Your task to perform on an android device: Google the capital of Brazil Image 0: 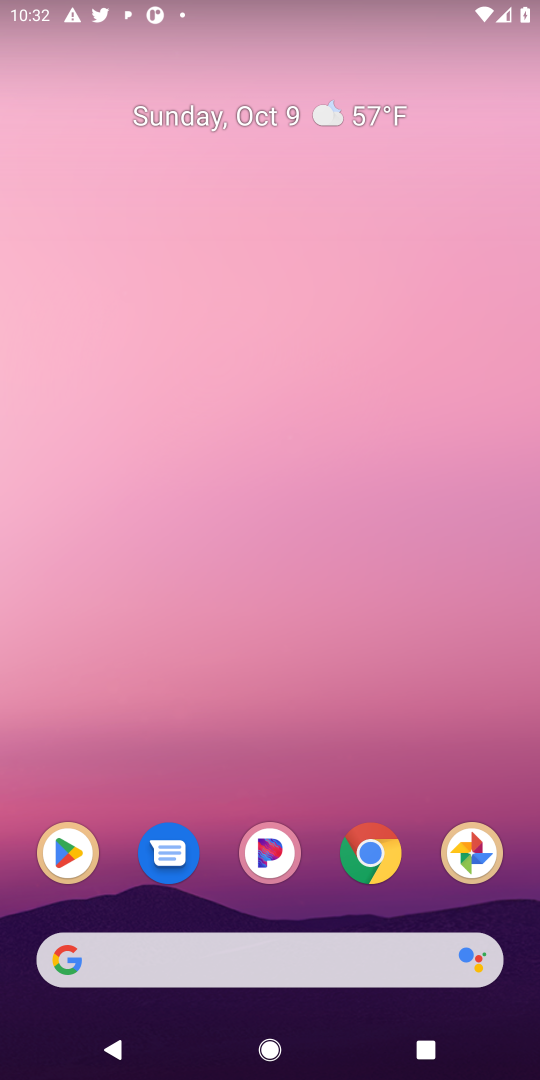
Step 0: click (313, 954)
Your task to perform on an android device: Google the capital of Brazil Image 1: 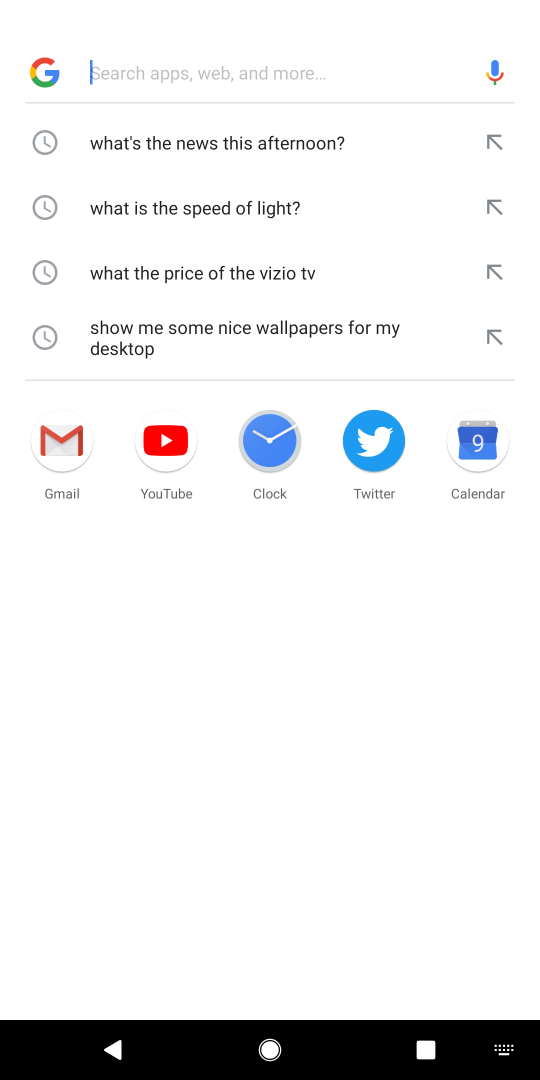
Step 1: type "Google the capital of Brazil"
Your task to perform on an android device: Google the capital of Brazil Image 2: 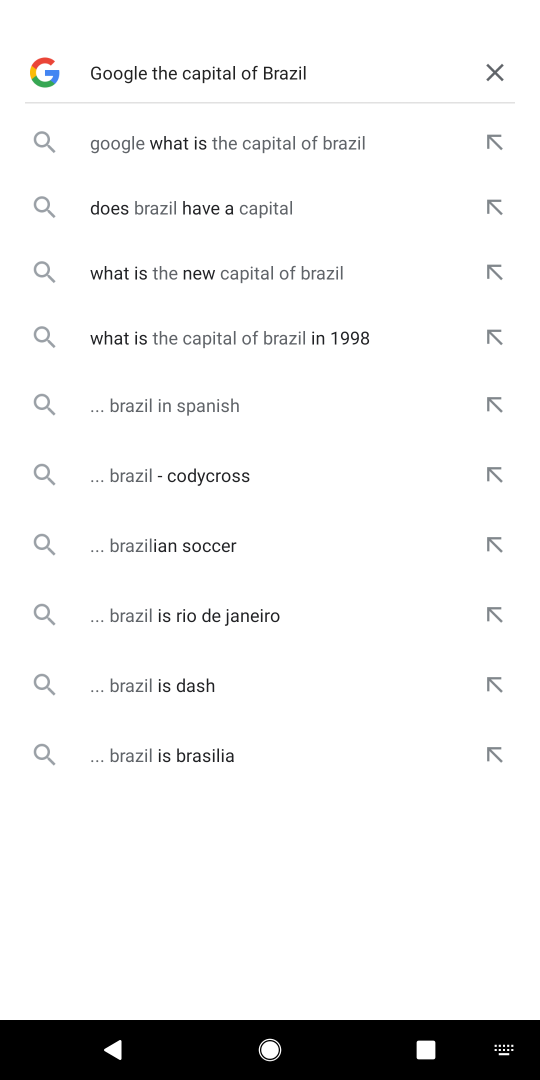
Step 2: type ""
Your task to perform on an android device: Google the capital of Brazil Image 3: 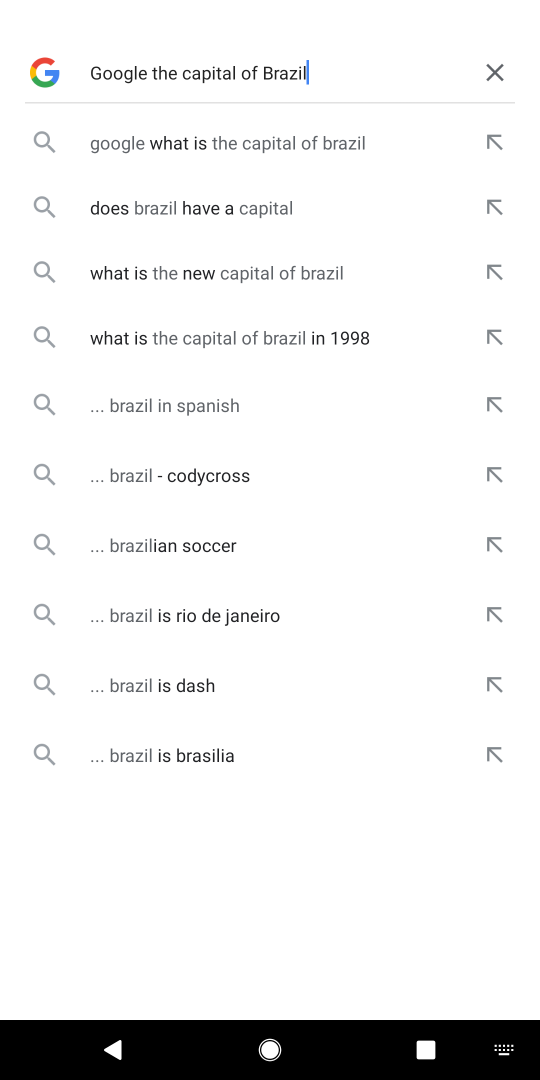
Step 3: press enter
Your task to perform on an android device: Google the capital of Brazil Image 4: 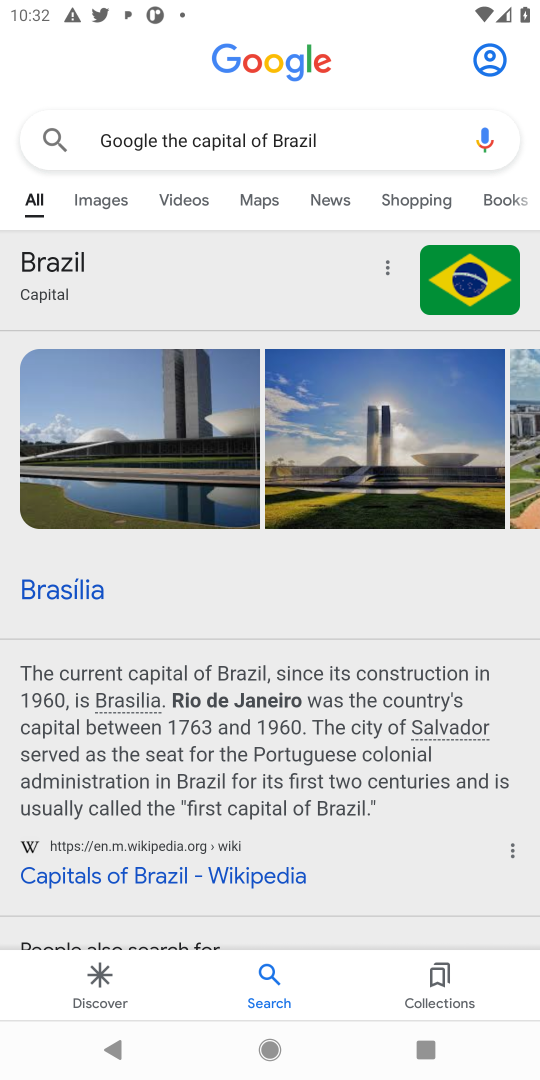
Step 4: drag from (261, 509) to (284, 412)
Your task to perform on an android device: Google the capital of Brazil Image 5: 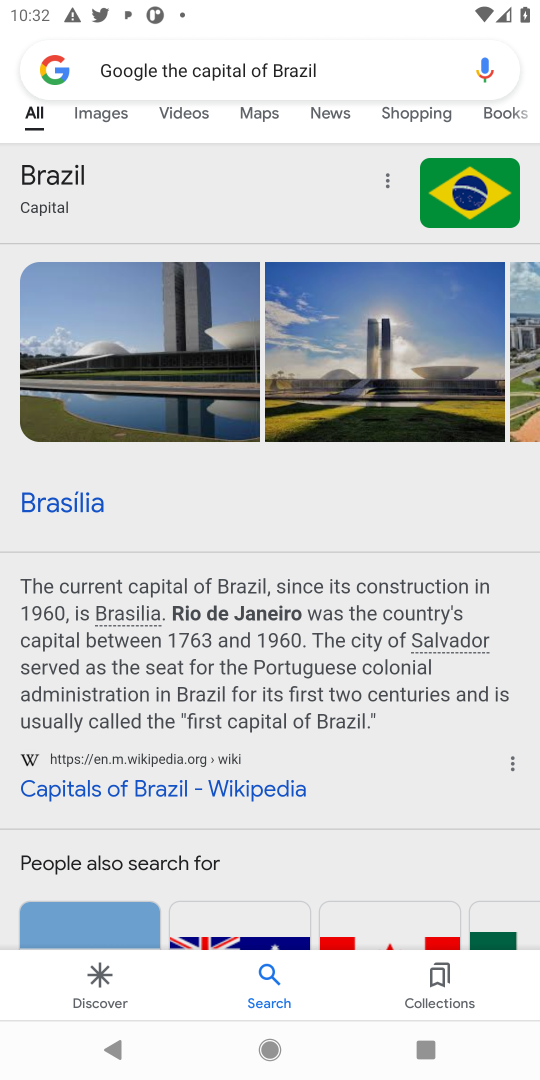
Step 5: click (132, 784)
Your task to perform on an android device: Google the capital of Brazil Image 6: 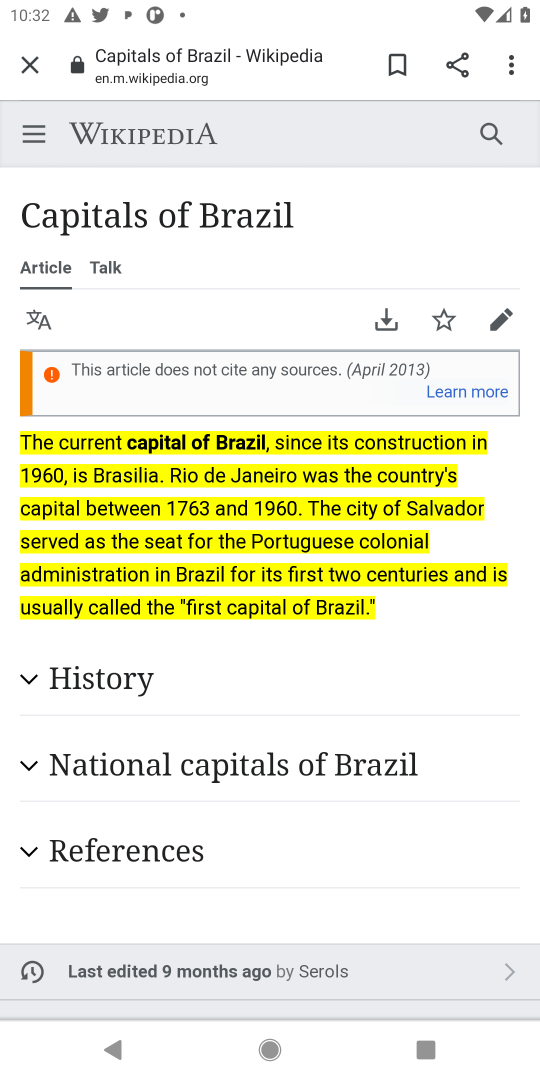
Step 6: drag from (132, 784) to (113, 303)
Your task to perform on an android device: Google the capital of Brazil Image 7: 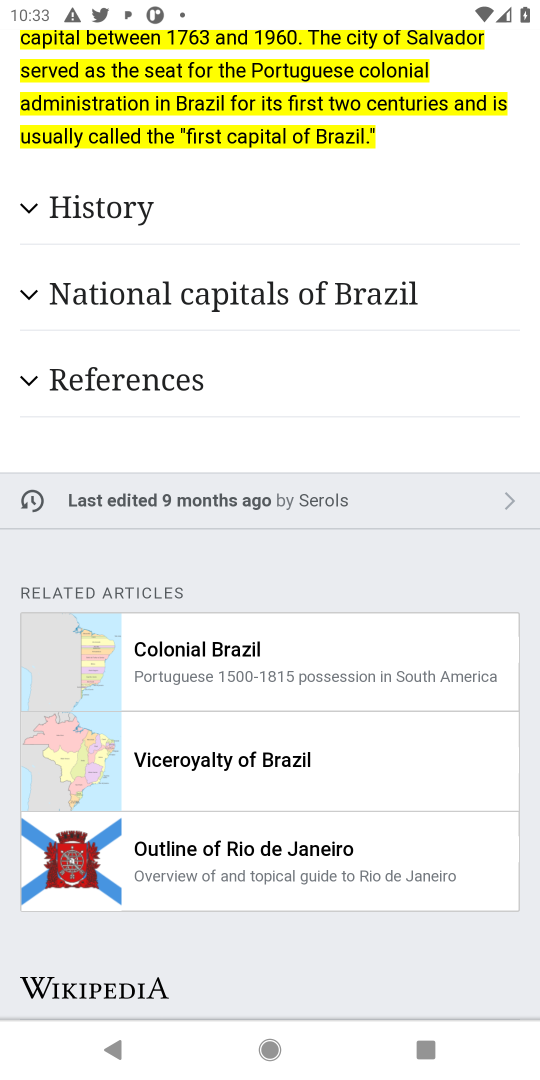
Step 7: drag from (221, 575) to (227, 265)
Your task to perform on an android device: Google the capital of Brazil Image 8: 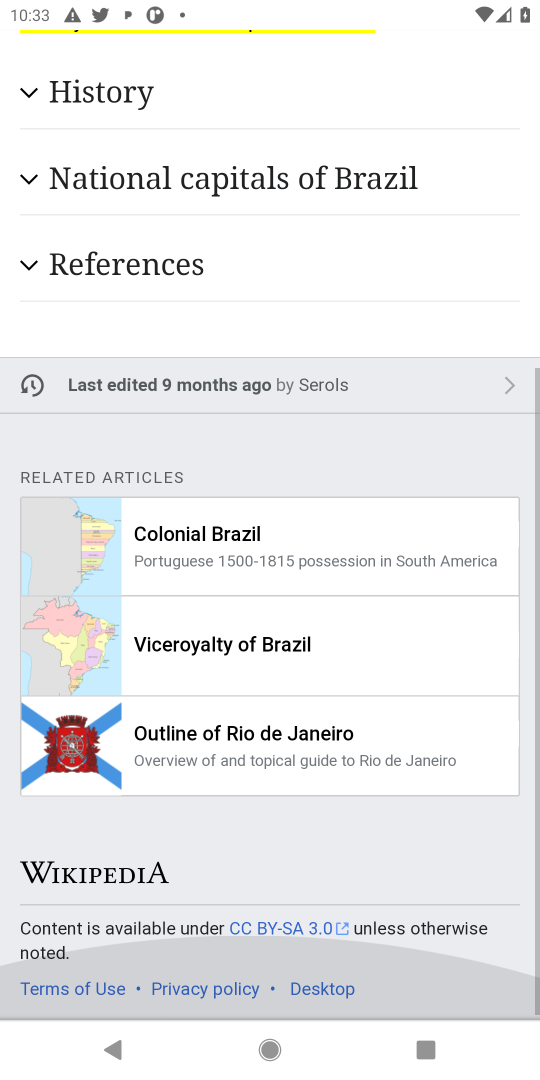
Step 8: drag from (257, 538) to (249, 225)
Your task to perform on an android device: Google the capital of Brazil Image 9: 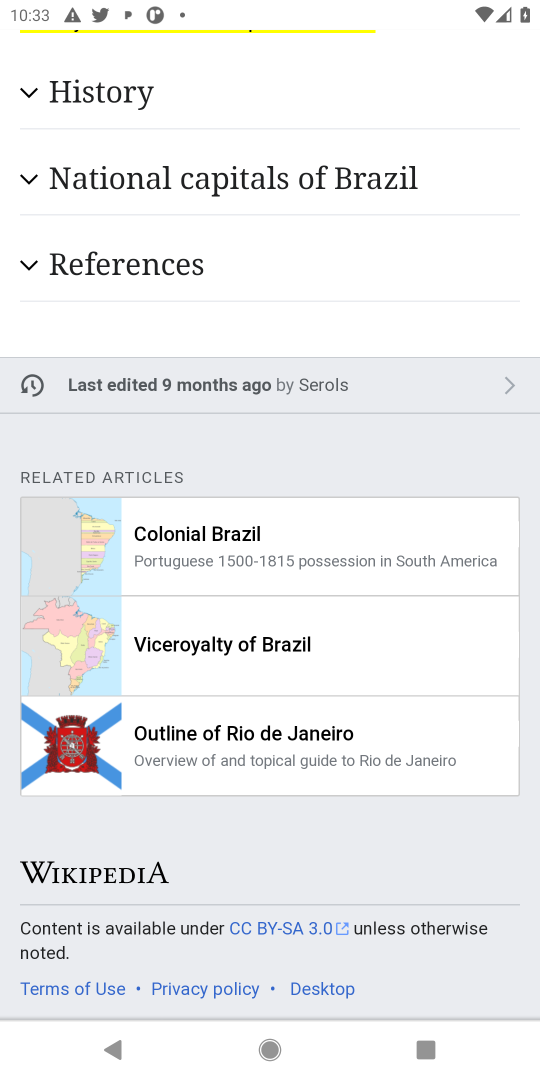
Step 9: drag from (332, 728) to (314, 201)
Your task to perform on an android device: Google the capital of Brazil Image 10: 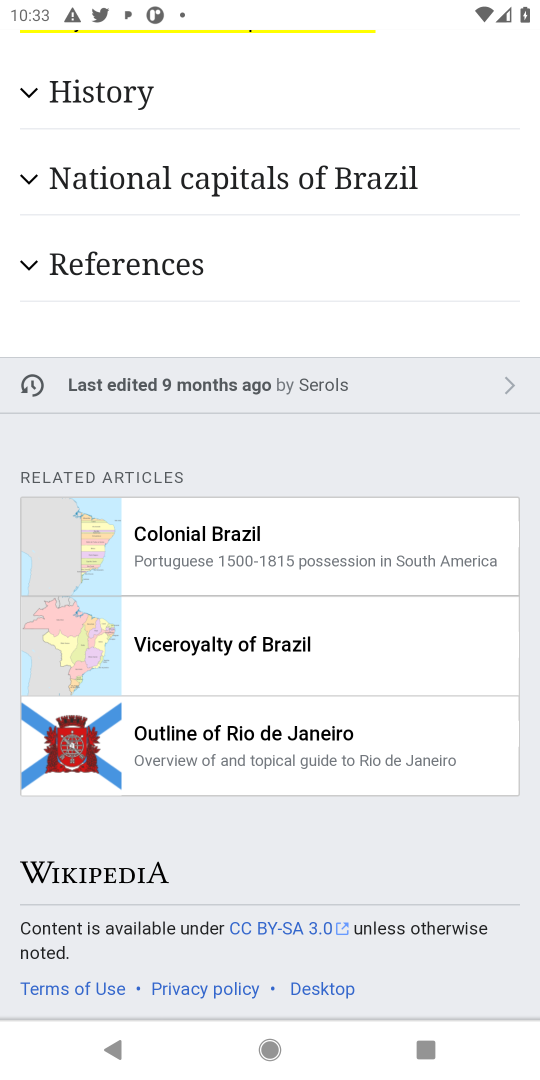
Step 10: drag from (381, 713) to (353, 247)
Your task to perform on an android device: Google the capital of Brazil Image 11: 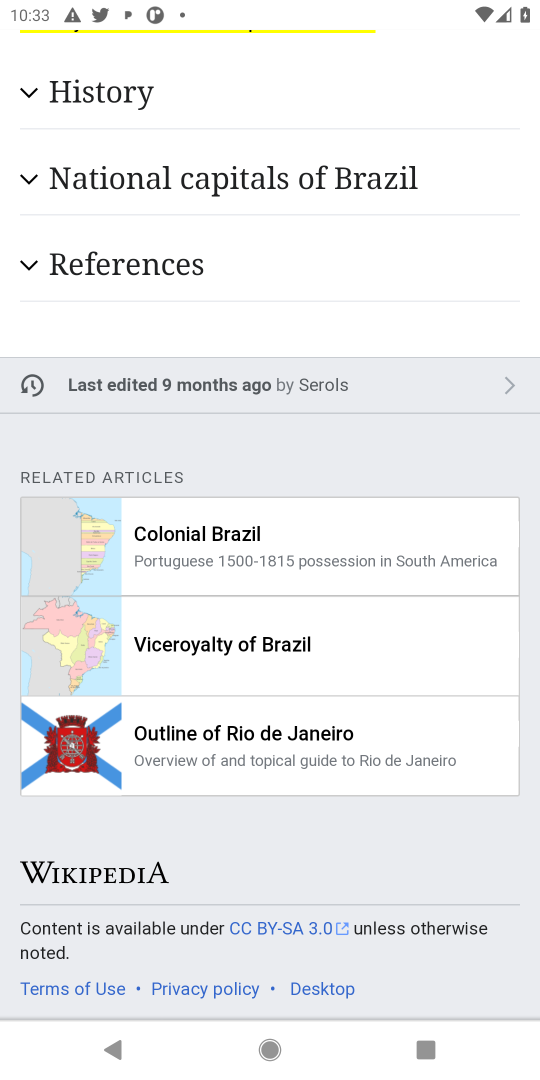
Step 11: drag from (347, 619) to (293, 216)
Your task to perform on an android device: Google the capital of Brazil Image 12: 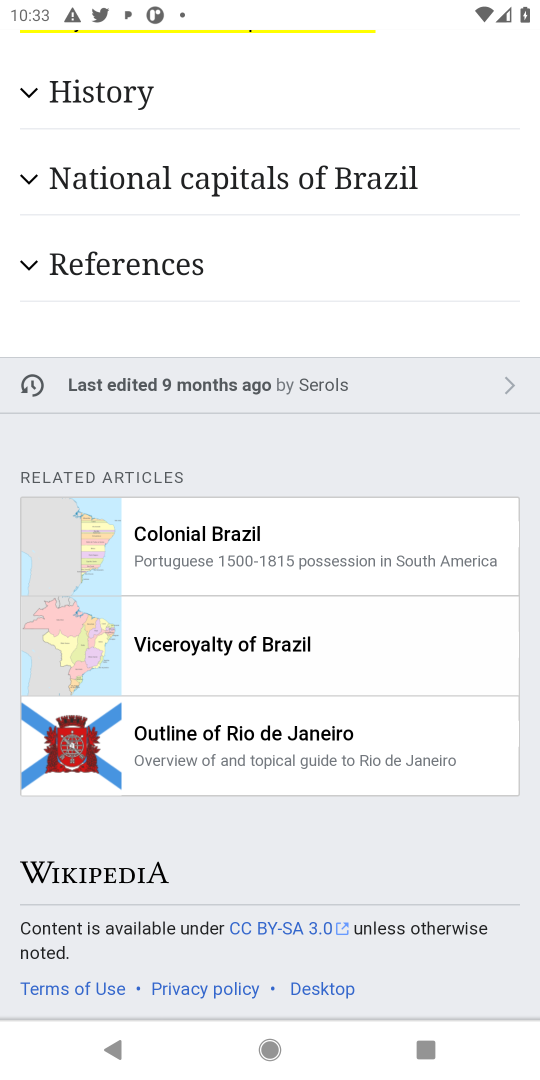
Step 12: drag from (362, 551) to (347, 145)
Your task to perform on an android device: Google the capital of Brazil Image 13: 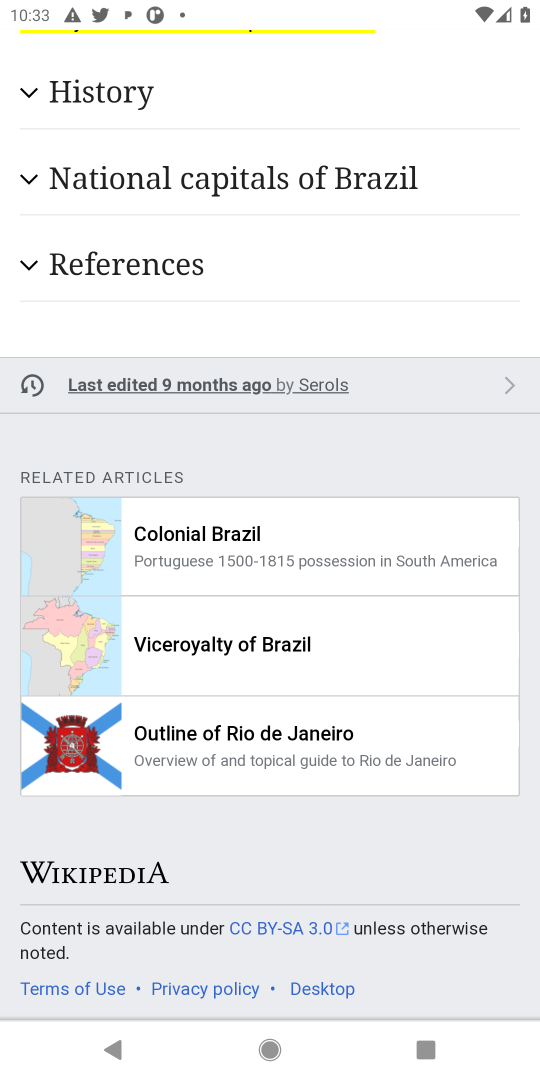
Step 13: drag from (375, 382) to (378, 124)
Your task to perform on an android device: Google the capital of Brazil Image 14: 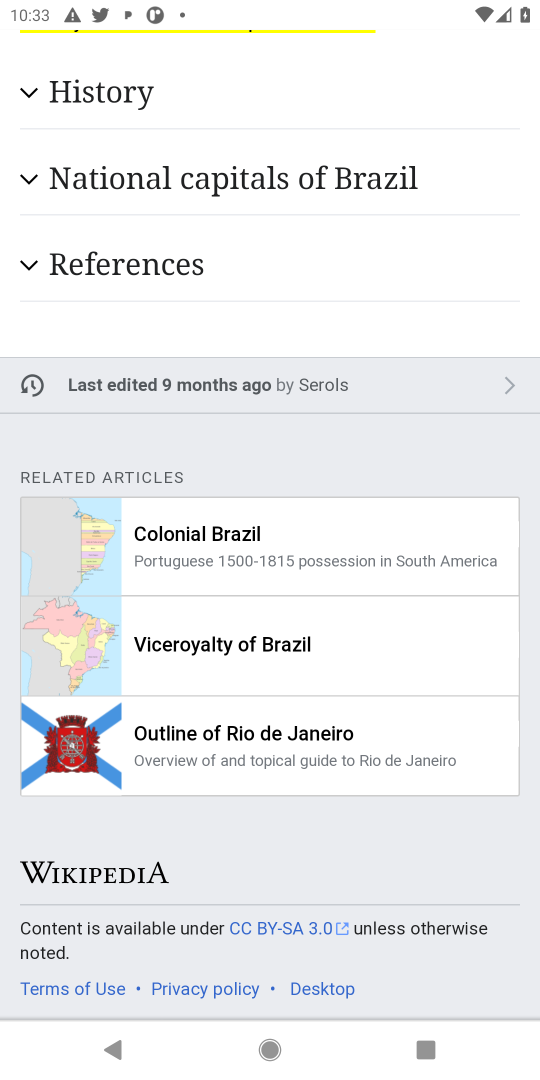
Step 14: drag from (293, 373) to (301, 164)
Your task to perform on an android device: Google the capital of Brazil Image 15: 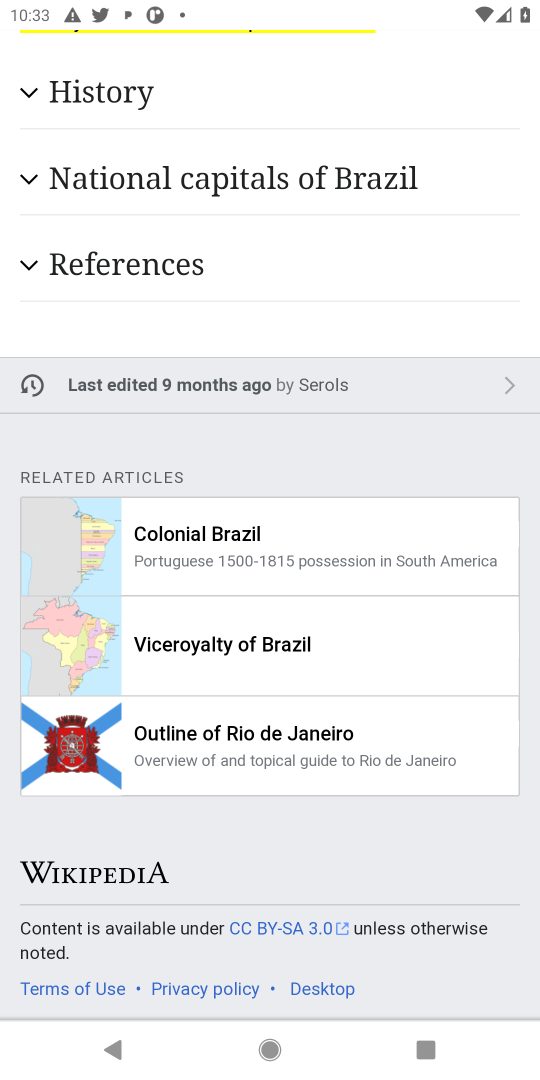
Step 15: drag from (259, 361) to (252, 189)
Your task to perform on an android device: Google the capital of Brazil Image 16: 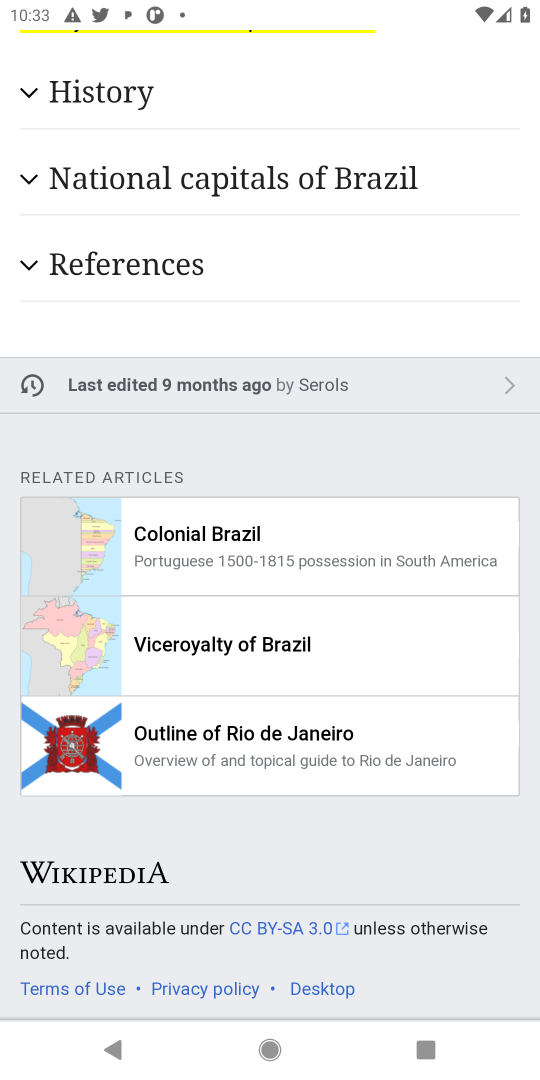
Step 16: drag from (225, 74) to (229, 670)
Your task to perform on an android device: Google the capital of Brazil Image 17: 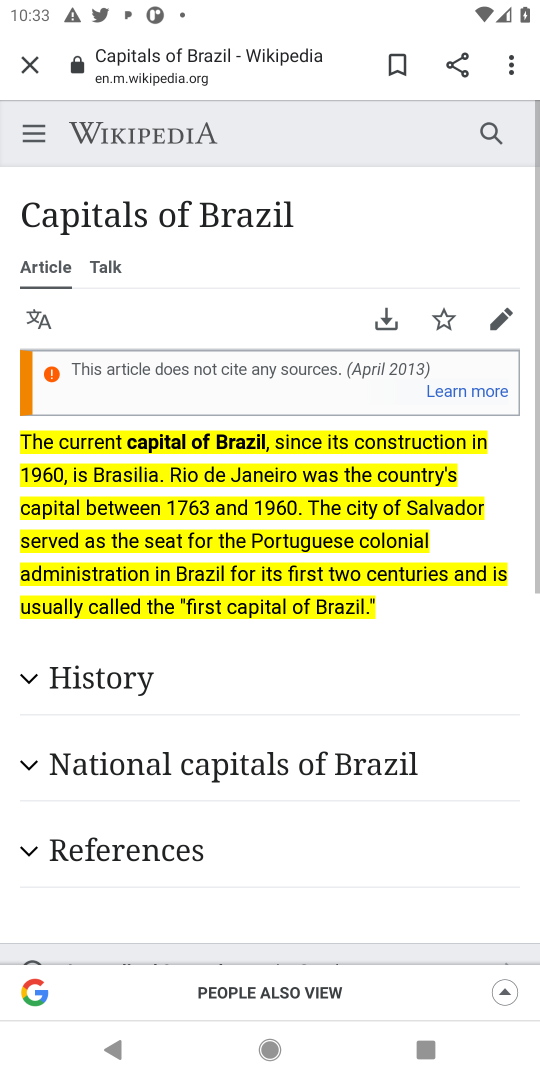
Step 17: drag from (280, 161) to (345, 718)
Your task to perform on an android device: Google the capital of Brazil Image 18: 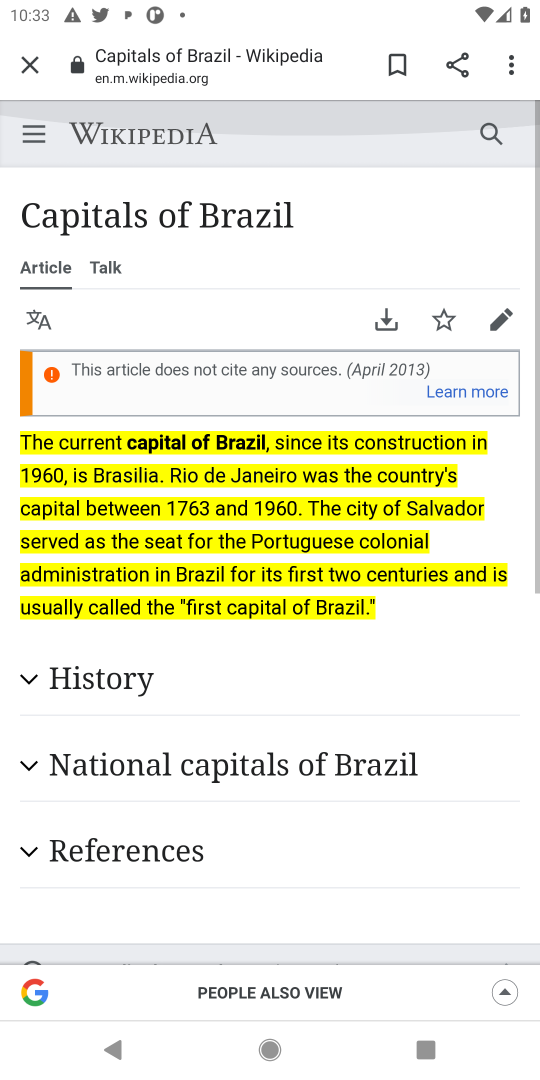
Step 18: drag from (366, 491) to (379, 712)
Your task to perform on an android device: Google the capital of Brazil Image 19: 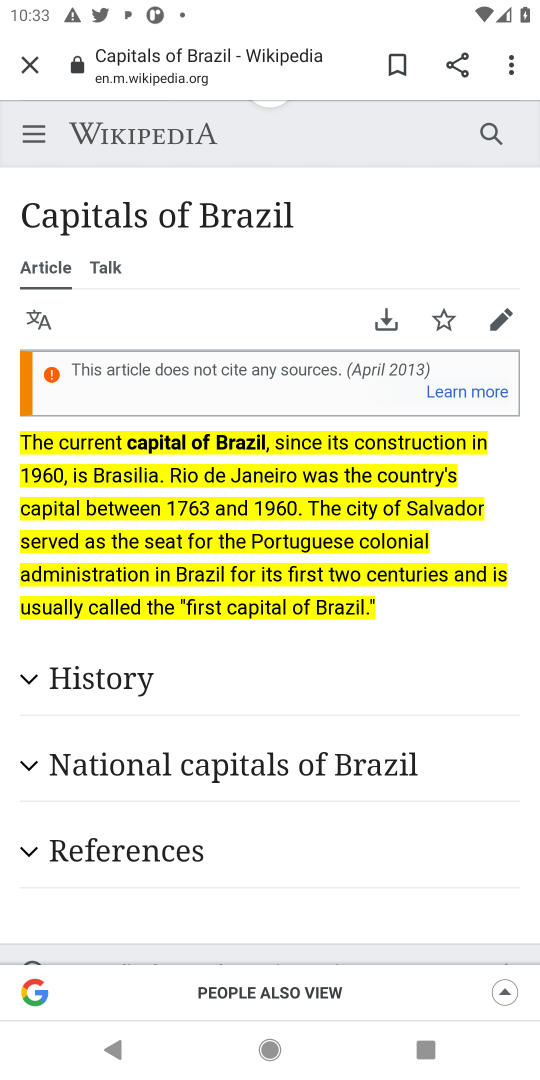
Step 19: drag from (378, 483) to (393, 720)
Your task to perform on an android device: Google the capital of Brazil Image 20: 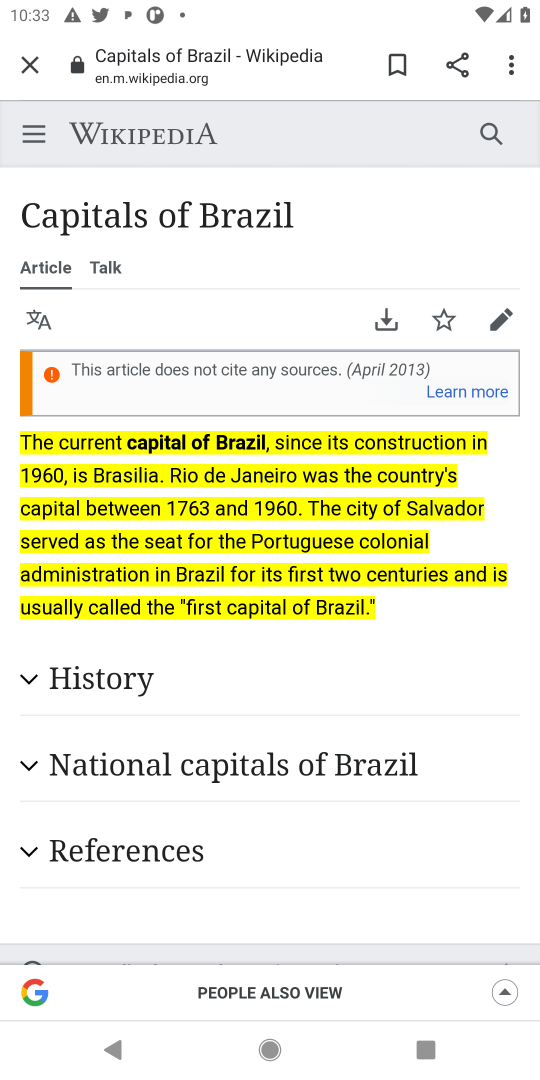
Step 20: drag from (315, 404) to (345, 747)
Your task to perform on an android device: Google the capital of Brazil Image 21: 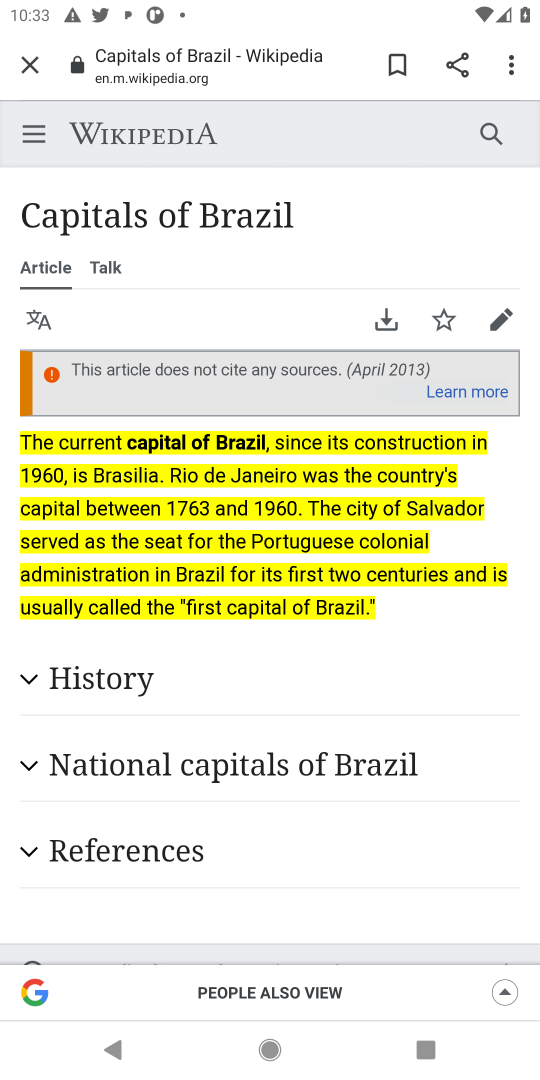
Step 21: drag from (302, 499) to (361, 693)
Your task to perform on an android device: Google the capital of Brazil Image 22: 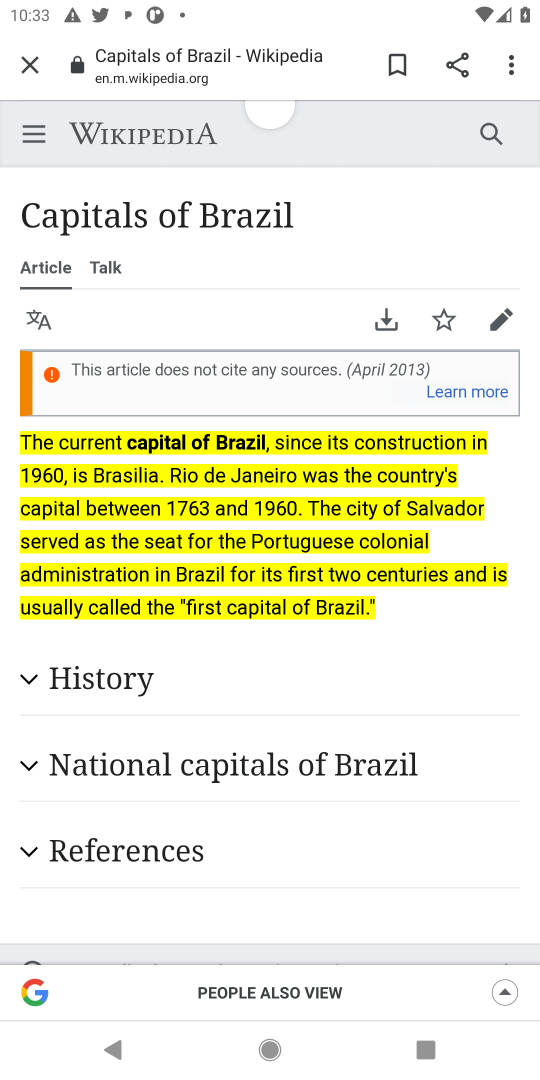
Step 22: drag from (327, 540) to (357, 681)
Your task to perform on an android device: Google the capital of Brazil Image 23: 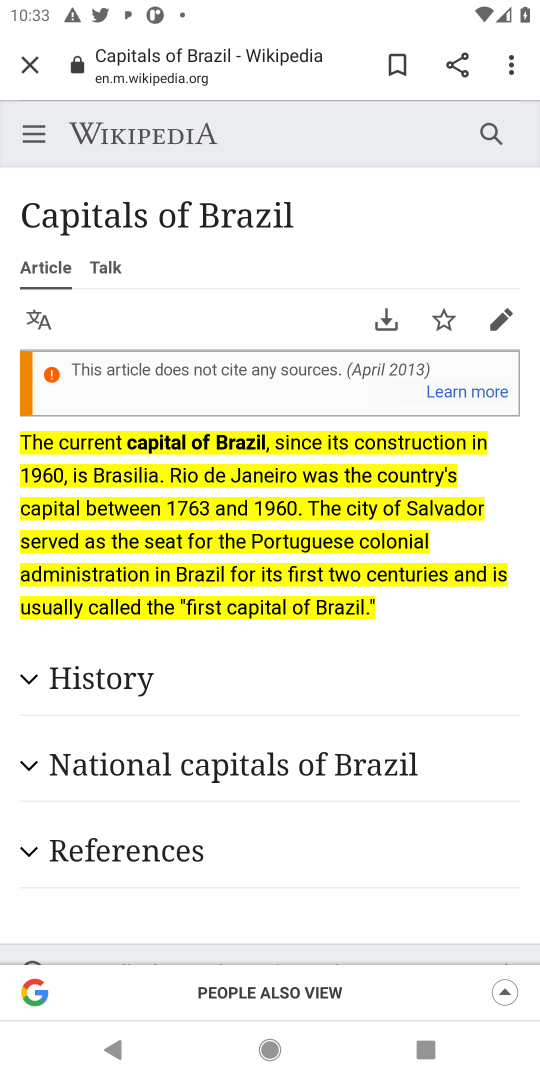
Step 23: drag from (360, 600) to (352, 766)
Your task to perform on an android device: Google the capital of Brazil Image 24: 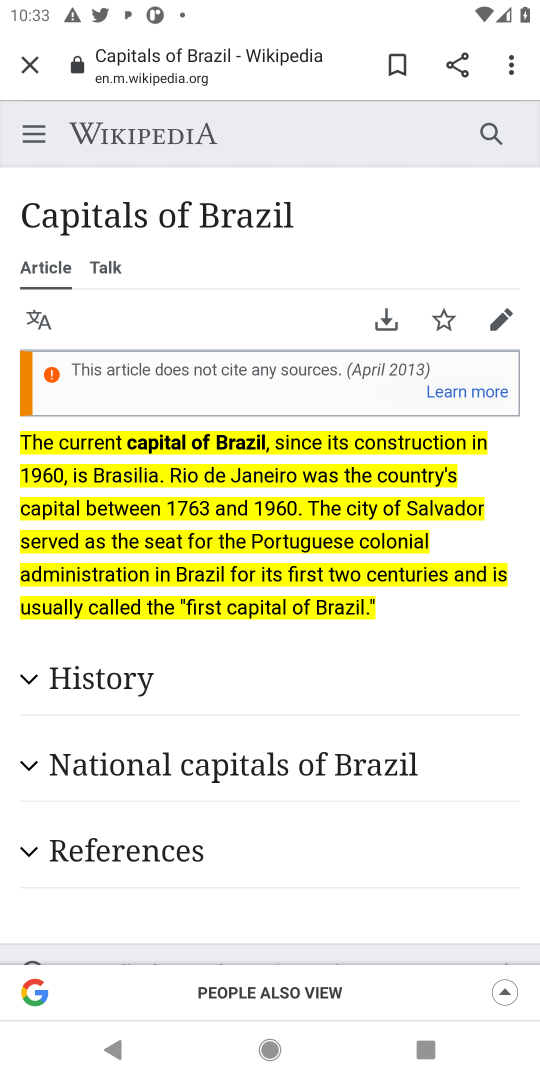
Step 24: drag from (289, 418) to (306, 815)
Your task to perform on an android device: Google the capital of Brazil Image 25: 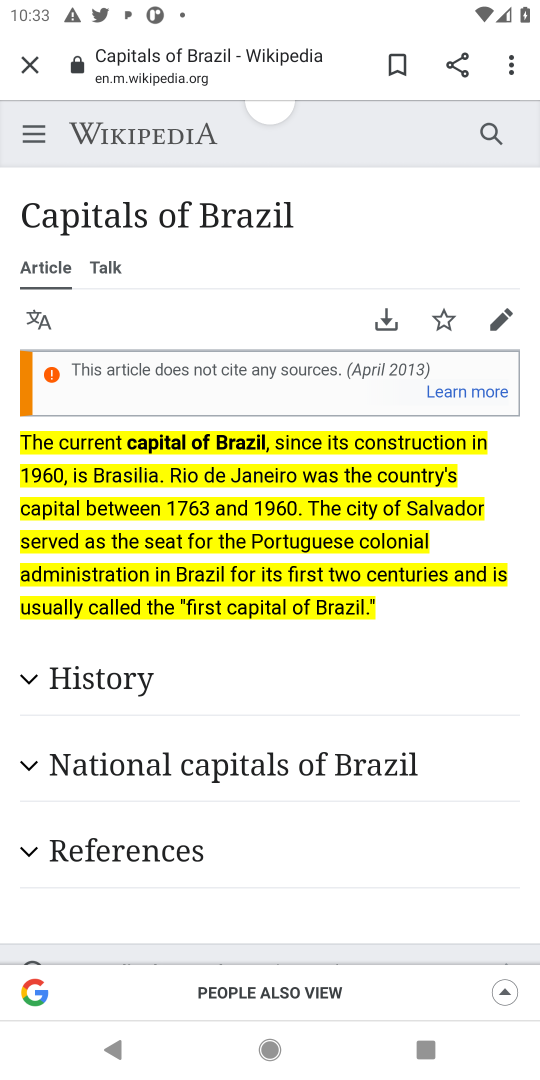
Step 25: click (369, 650)
Your task to perform on an android device: Google the capital of Brazil Image 26: 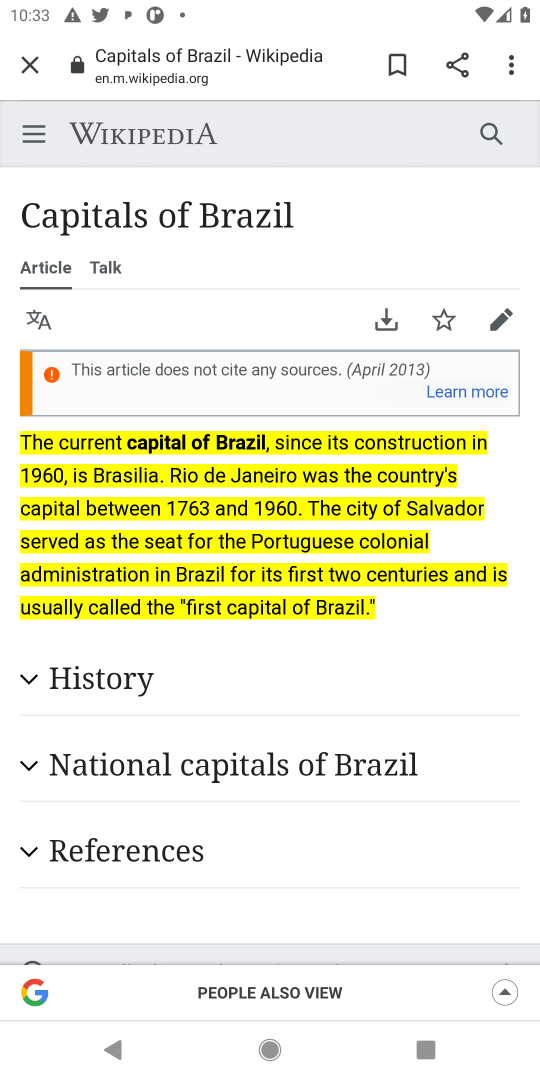
Step 26: press back button
Your task to perform on an android device: Google the capital of Brazil Image 27: 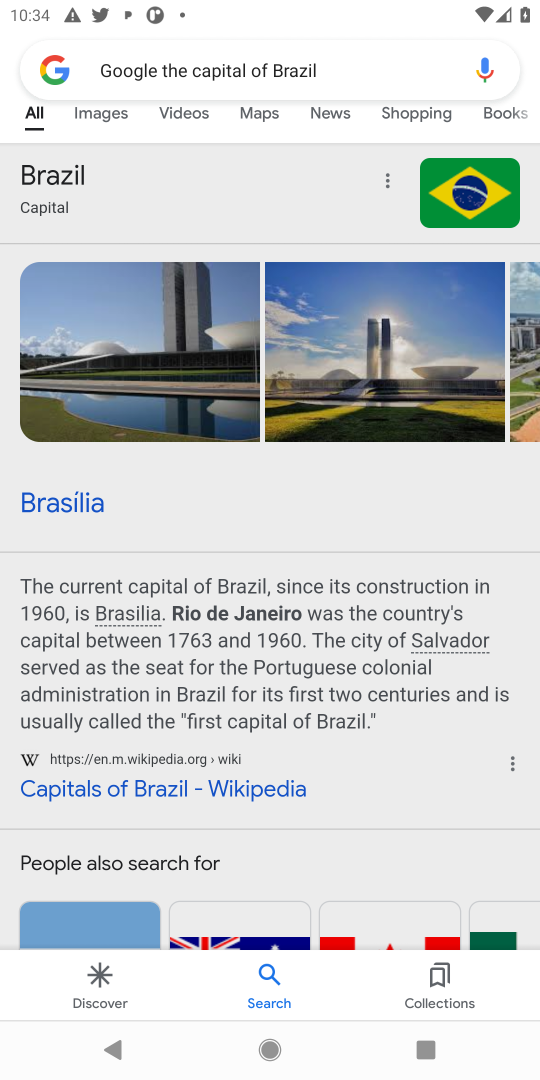
Step 27: drag from (306, 514) to (333, 238)
Your task to perform on an android device: Google the capital of Brazil Image 28: 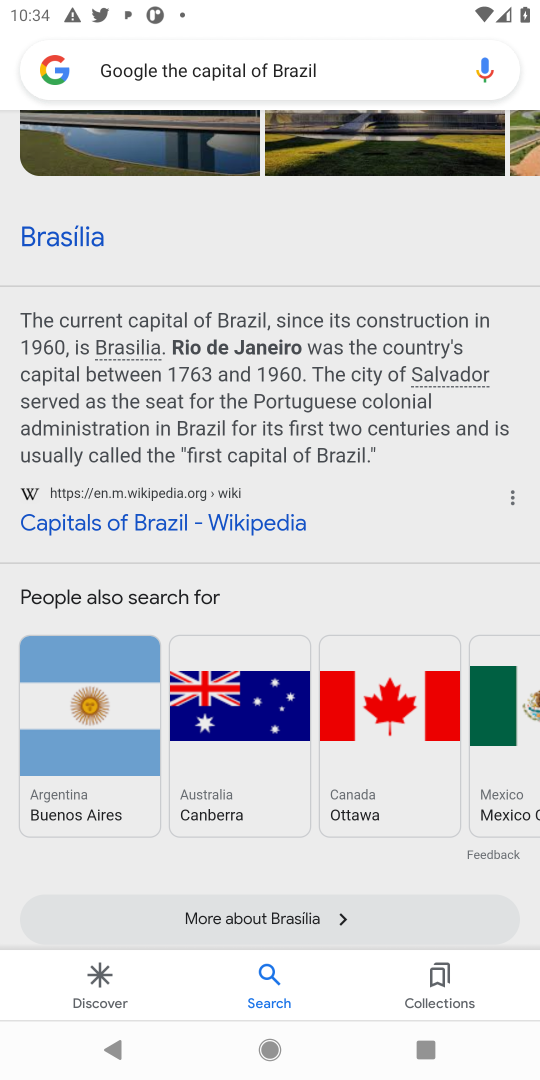
Step 28: drag from (272, 667) to (350, 307)
Your task to perform on an android device: Google the capital of Brazil Image 29: 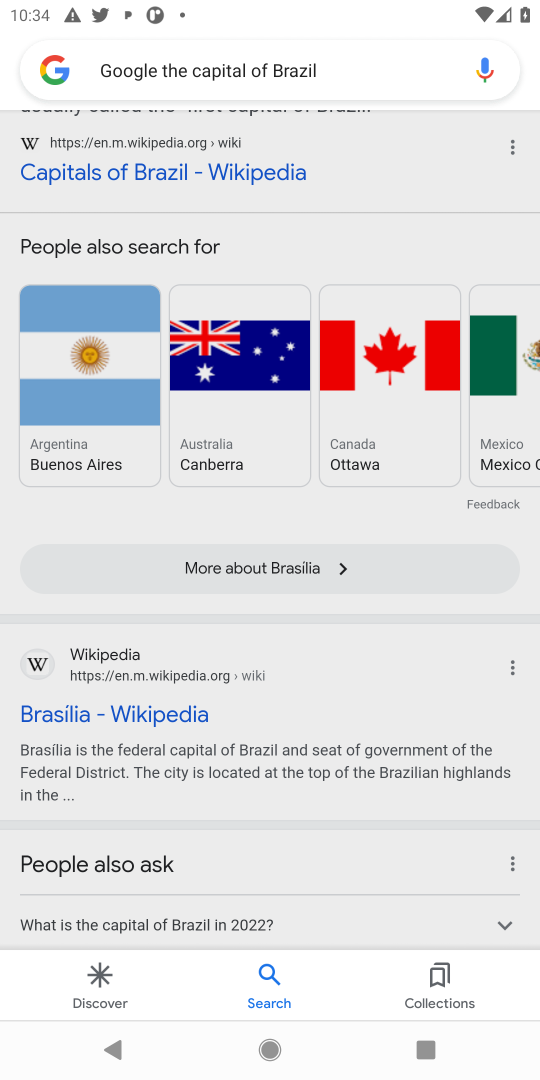
Step 29: drag from (268, 664) to (281, 321)
Your task to perform on an android device: Google the capital of Brazil Image 30: 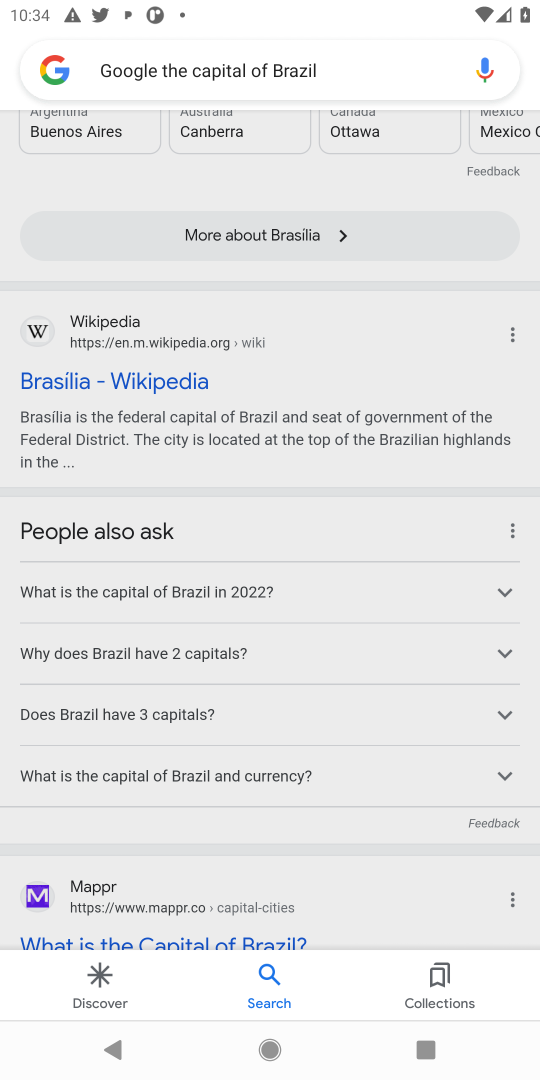
Step 30: drag from (275, 781) to (252, 299)
Your task to perform on an android device: Google the capital of Brazil Image 31: 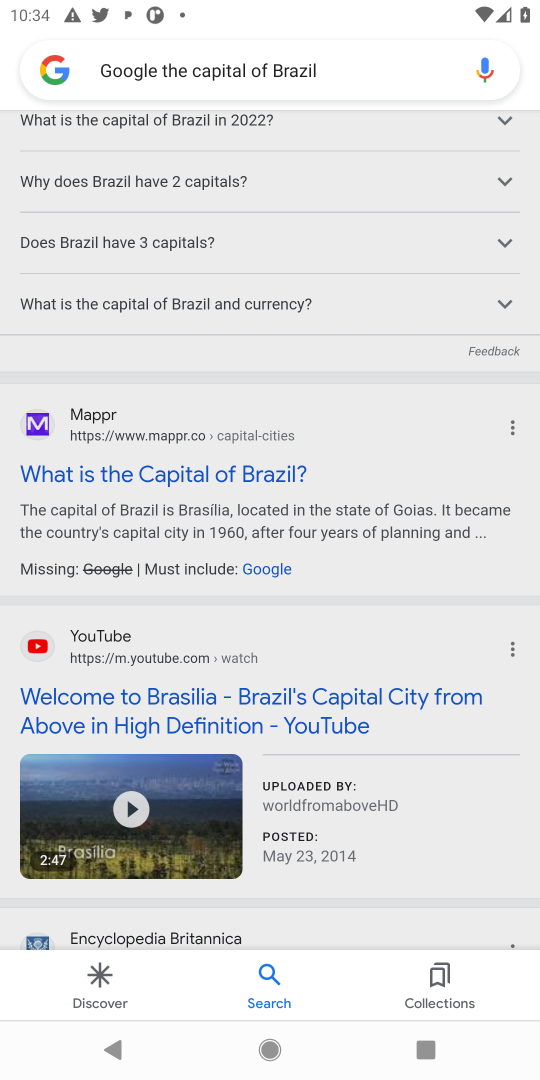
Step 31: drag from (285, 515) to (281, 352)
Your task to perform on an android device: Google the capital of Brazil Image 32: 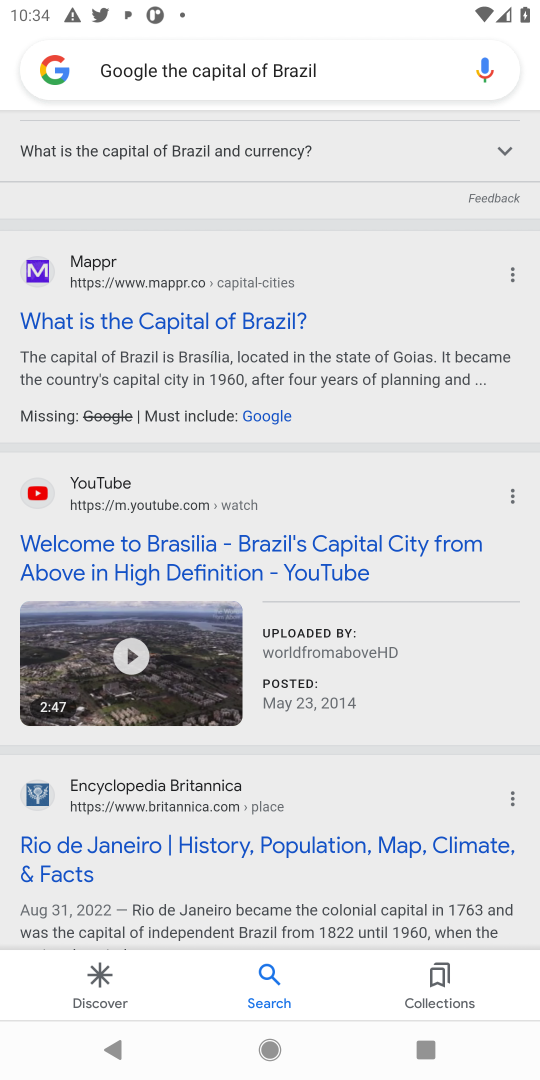
Step 32: click (153, 310)
Your task to perform on an android device: Google the capital of Brazil Image 33: 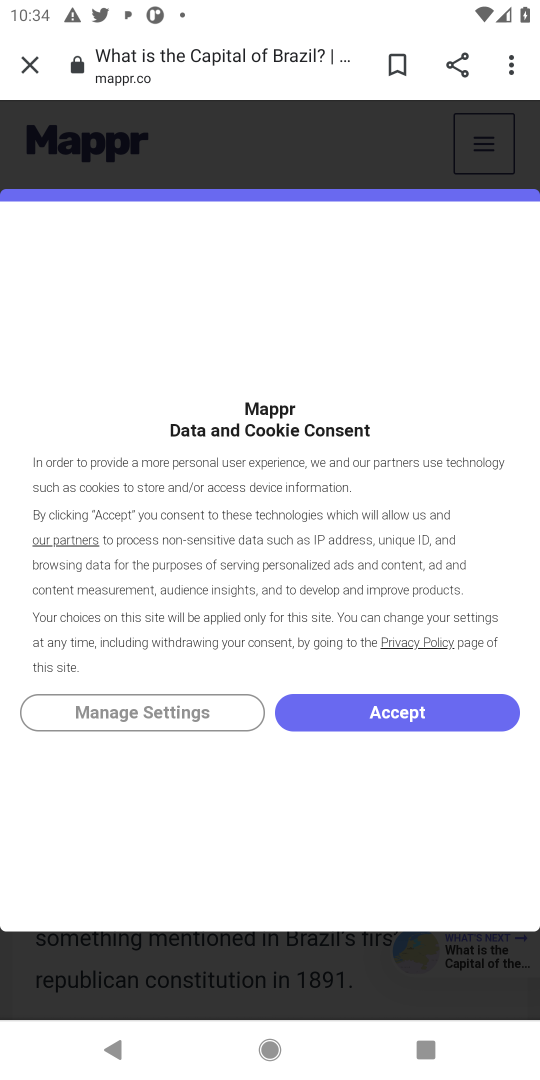
Step 33: click (485, 704)
Your task to perform on an android device: Google the capital of Brazil Image 34: 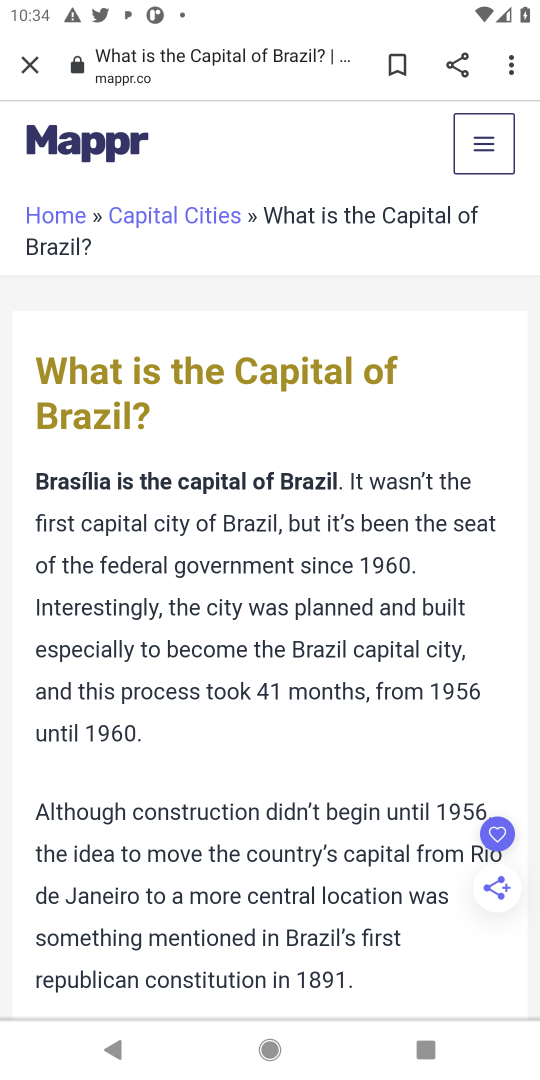
Step 34: drag from (468, 789) to (449, 257)
Your task to perform on an android device: Google the capital of Brazil Image 35: 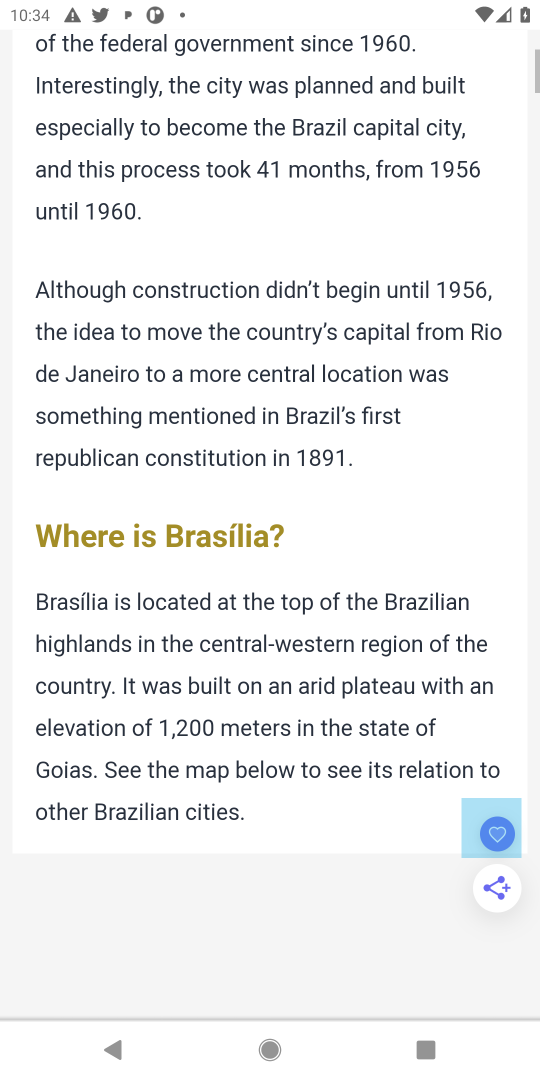
Step 35: drag from (384, 608) to (388, 345)
Your task to perform on an android device: Google the capital of Brazil Image 36: 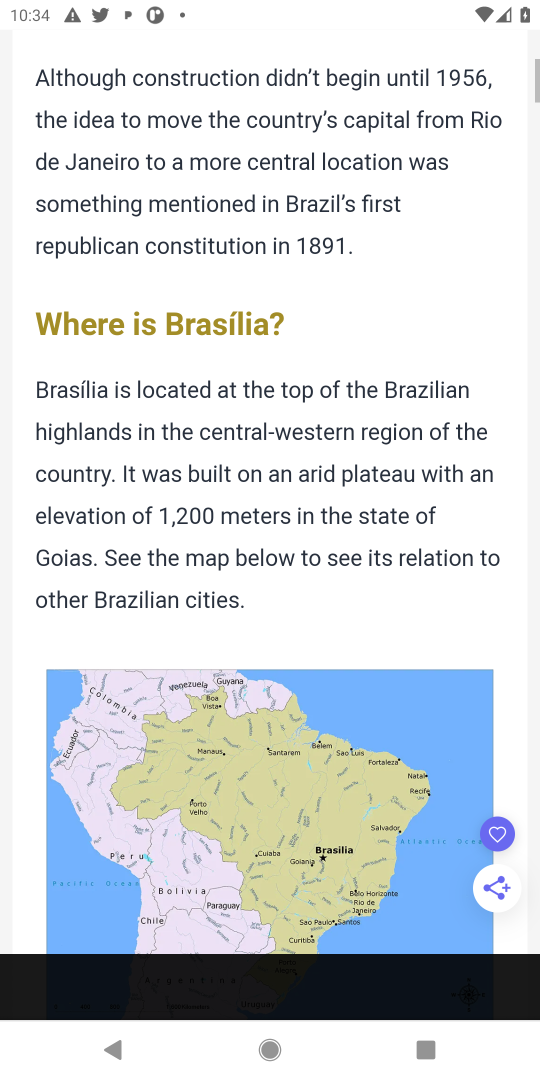
Step 36: drag from (399, 673) to (400, 304)
Your task to perform on an android device: Google the capital of Brazil Image 37: 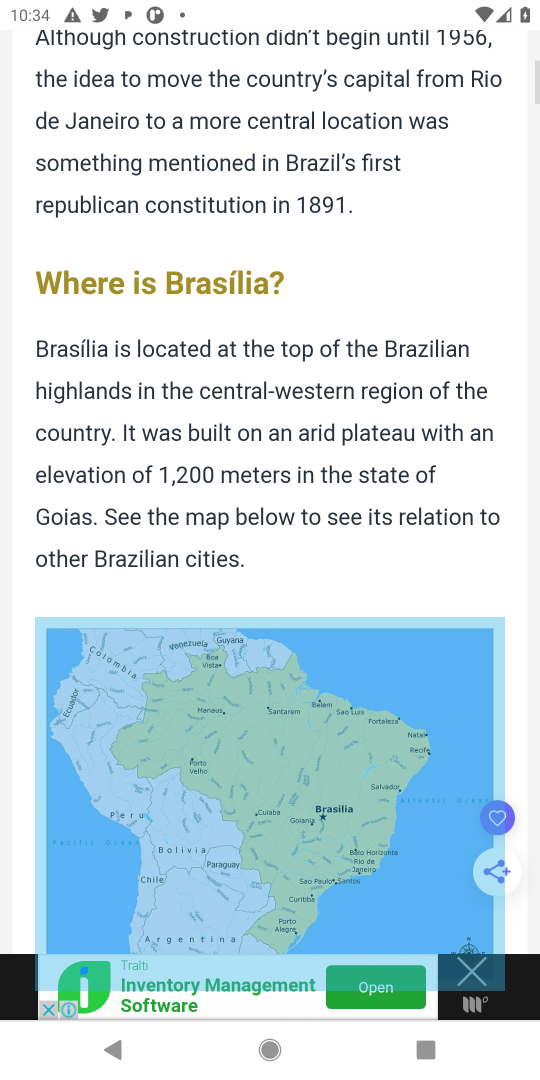
Step 37: drag from (337, 425) to (320, 278)
Your task to perform on an android device: Google the capital of Brazil Image 38: 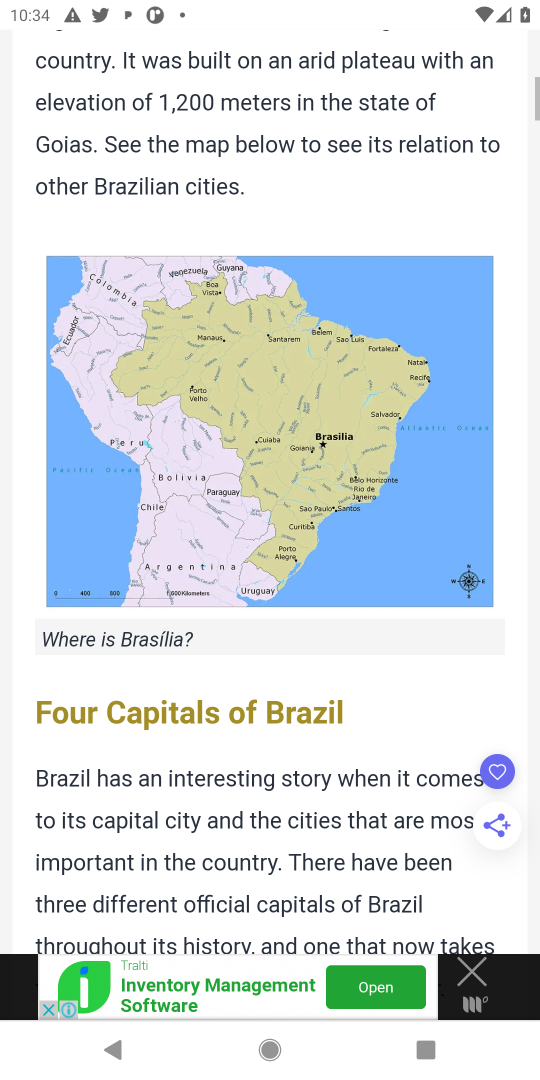
Step 38: drag from (387, 737) to (390, 244)
Your task to perform on an android device: Google the capital of Brazil Image 39: 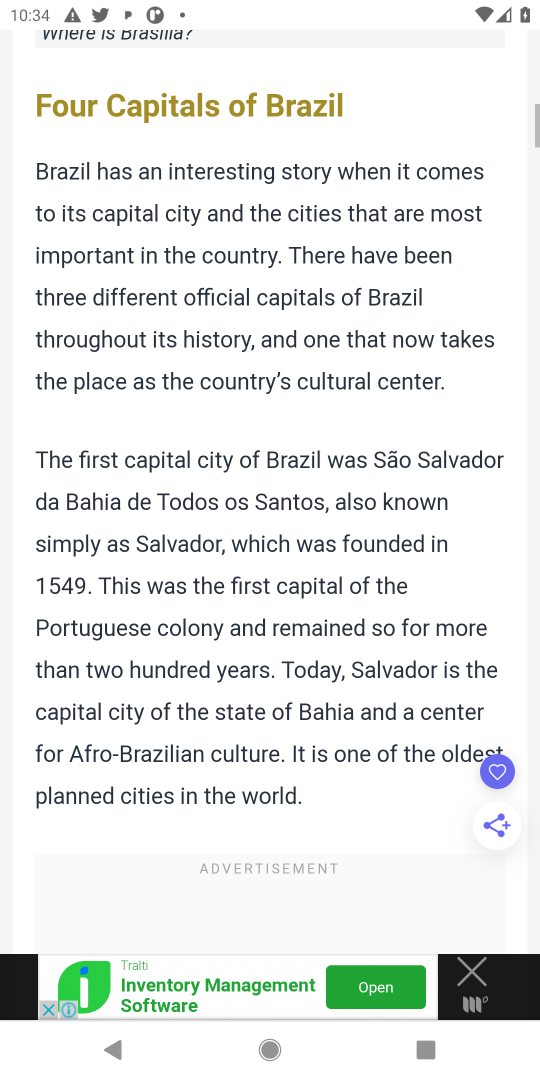
Step 39: drag from (367, 458) to (368, 137)
Your task to perform on an android device: Google the capital of Brazil Image 40: 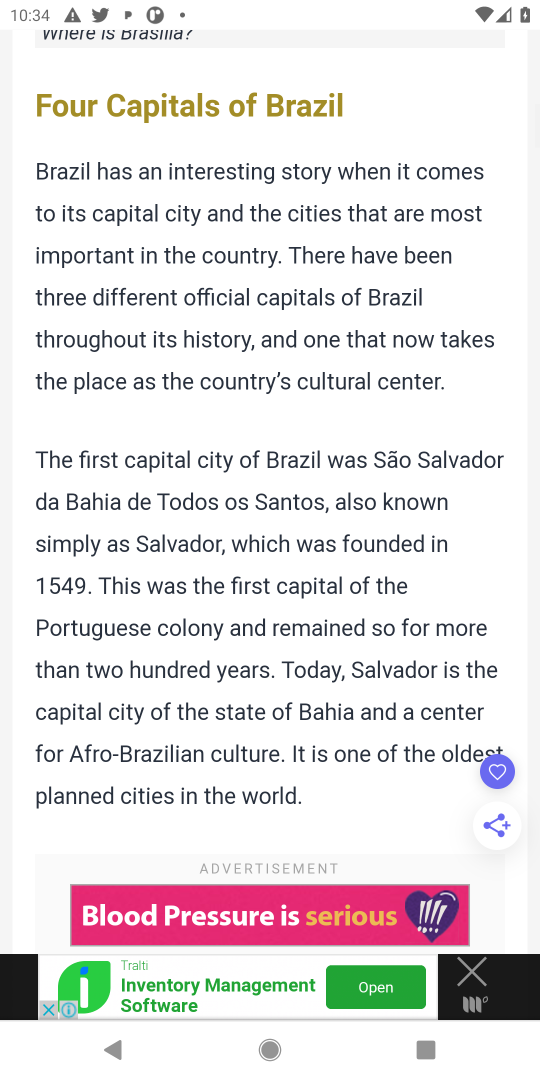
Step 40: drag from (349, 663) to (319, 21)
Your task to perform on an android device: Google the capital of Brazil Image 41: 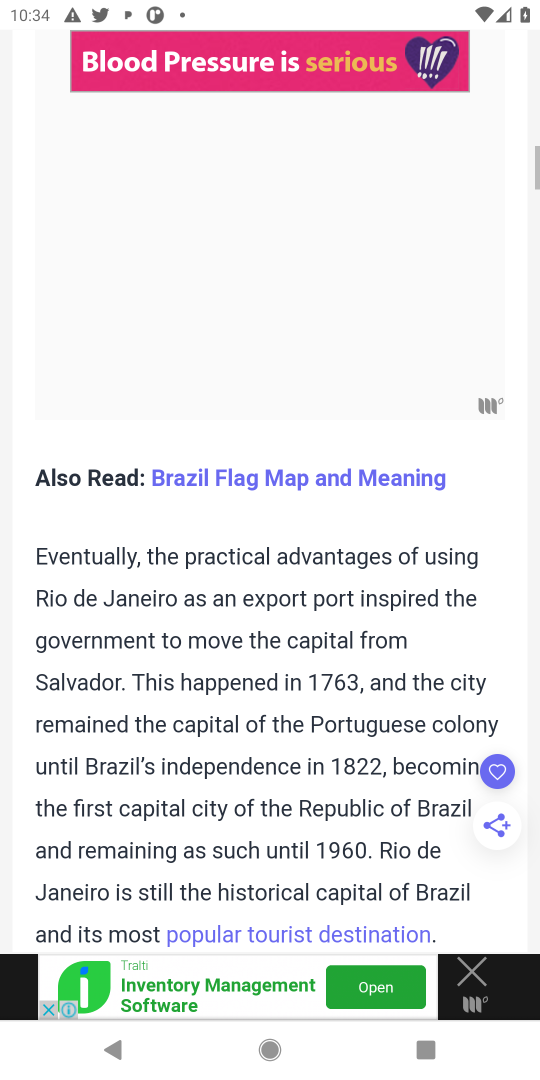
Step 41: drag from (296, 604) to (316, 271)
Your task to perform on an android device: Google the capital of Brazil Image 42: 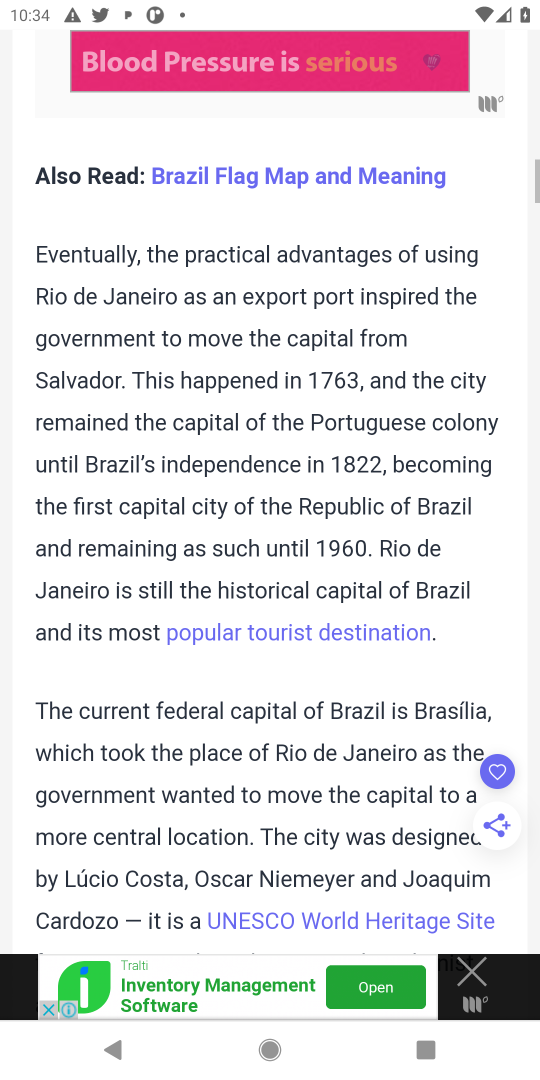
Step 42: drag from (319, 448) to (296, 332)
Your task to perform on an android device: Google the capital of Brazil Image 43: 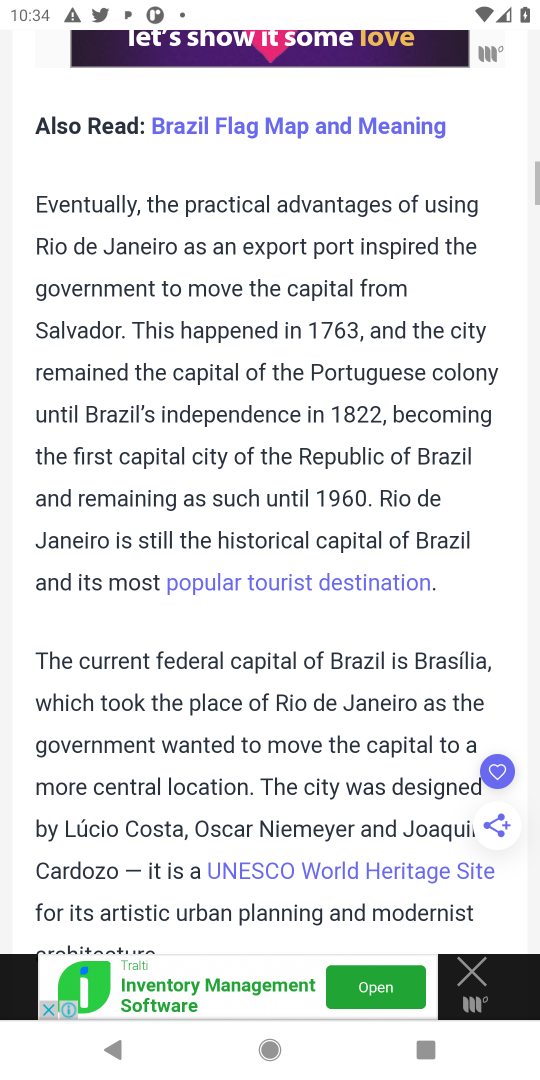
Step 43: drag from (265, 545) to (284, 386)
Your task to perform on an android device: Google the capital of Brazil Image 44: 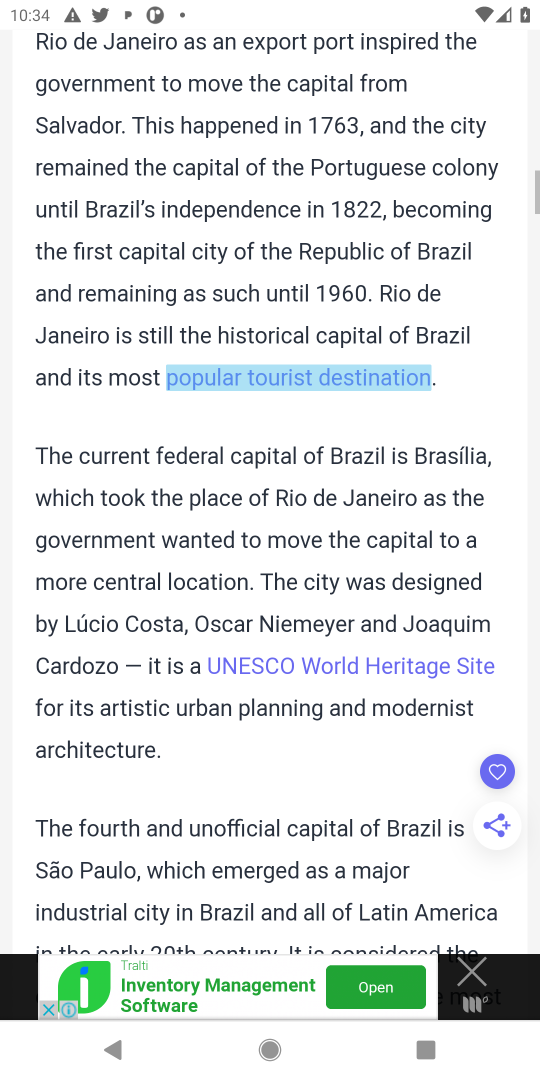
Step 44: drag from (272, 414) to (280, 288)
Your task to perform on an android device: Google the capital of Brazil Image 45: 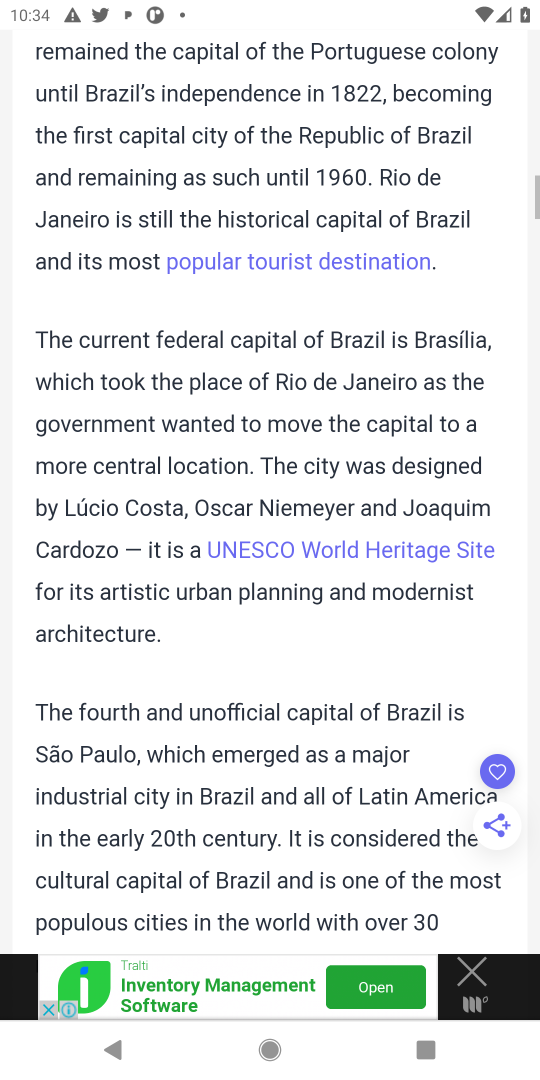
Step 45: drag from (310, 596) to (289, 235)
Your task to perform on an android device: Google the capital of Brazil Image 46: 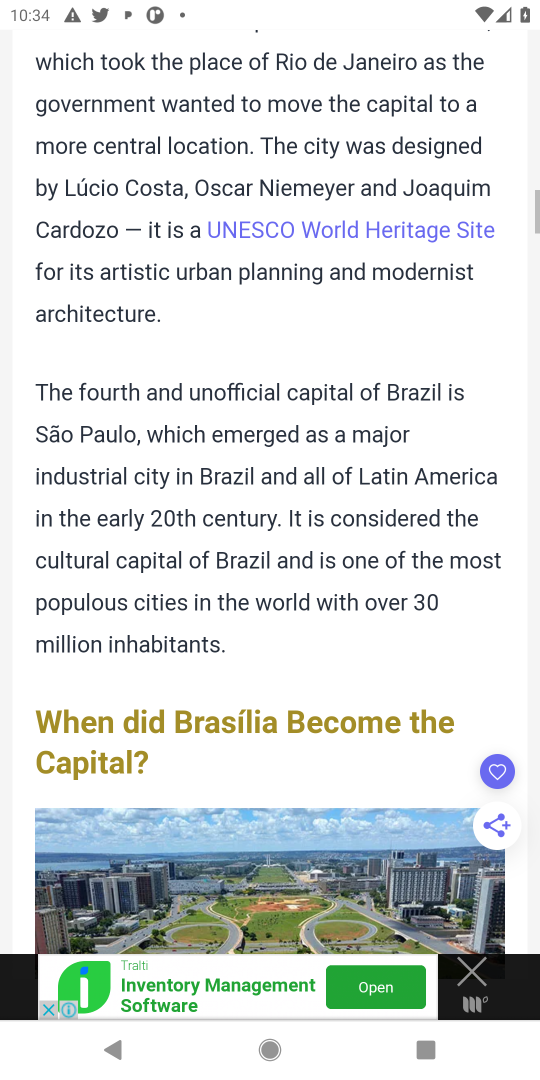
Step 46: drag from (230, 313) to (230, 152)
Your task to perform on an android device: Google the capital of Brazil Image 47: 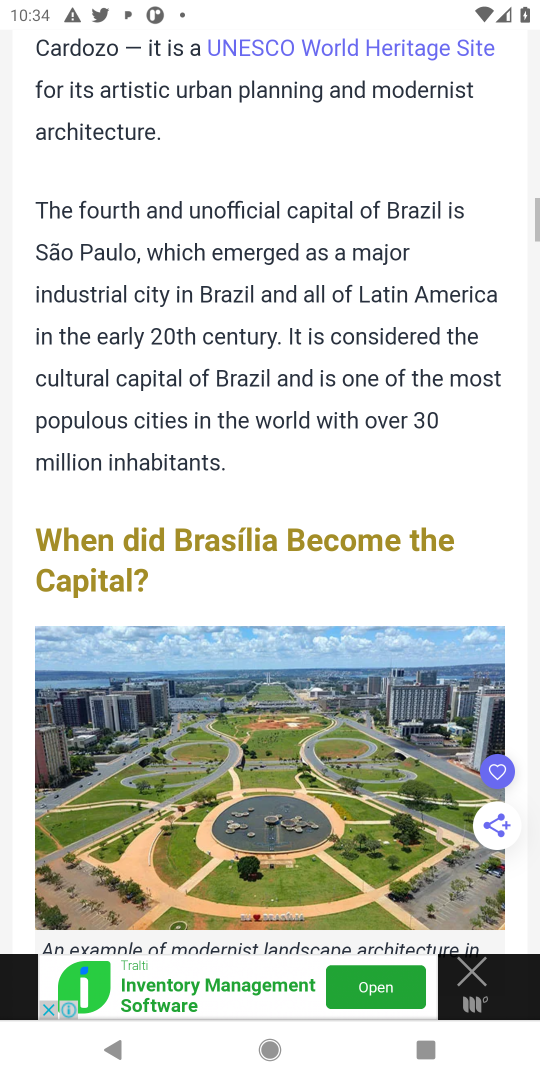
Step 47: click (264, 266)
Your task to perform on an android device: Google the capital of Brazil Image 48: 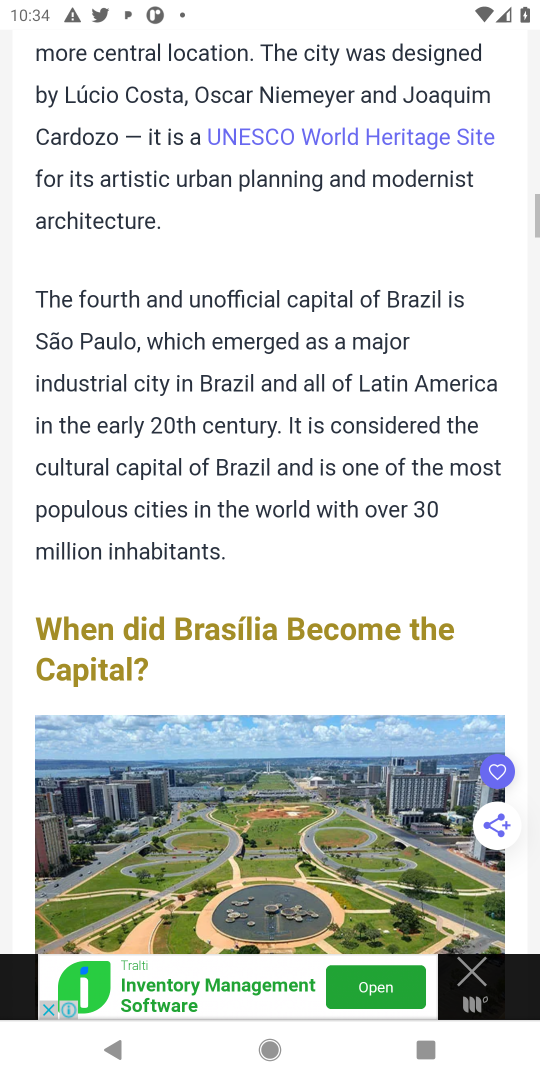
Step 48: drag from (256, 432) to (313, 237)
Your task to perform on an android device: Google the capital of Brazil Image 49: 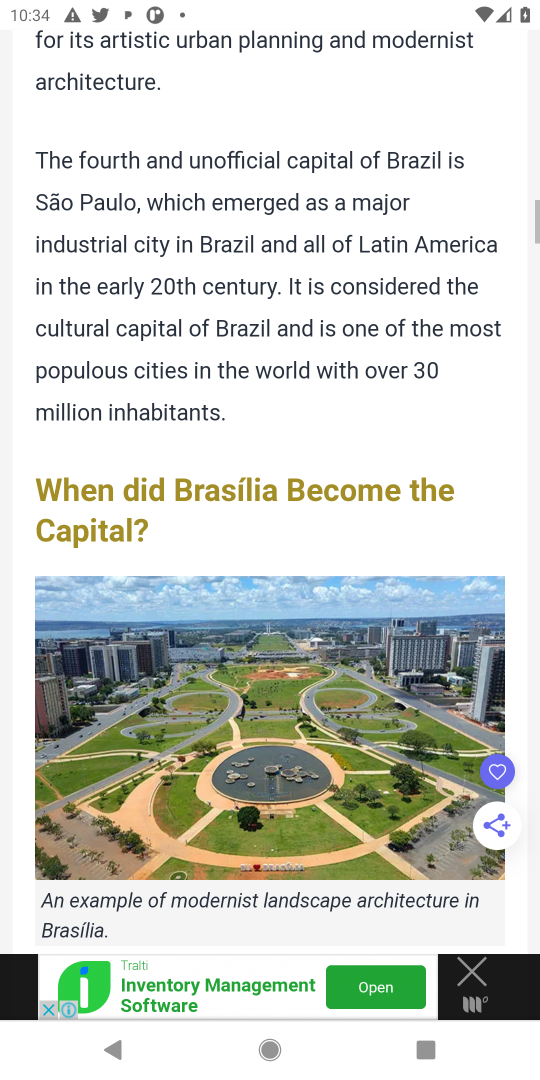
Step 49: drag from (319, 782) to (332, 401)
Your task to perform on an android device: Google the capital of Brazil Image 50: 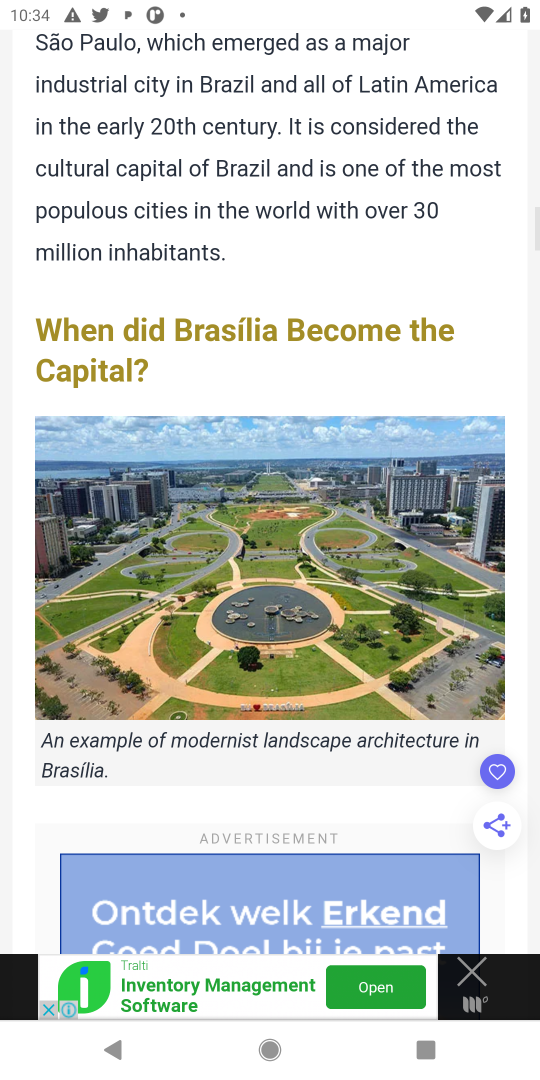
Step 50: drag from (310, 804) to (354, 315)
Your task to perform on an android device: Google the capital of Brazil Image 51: 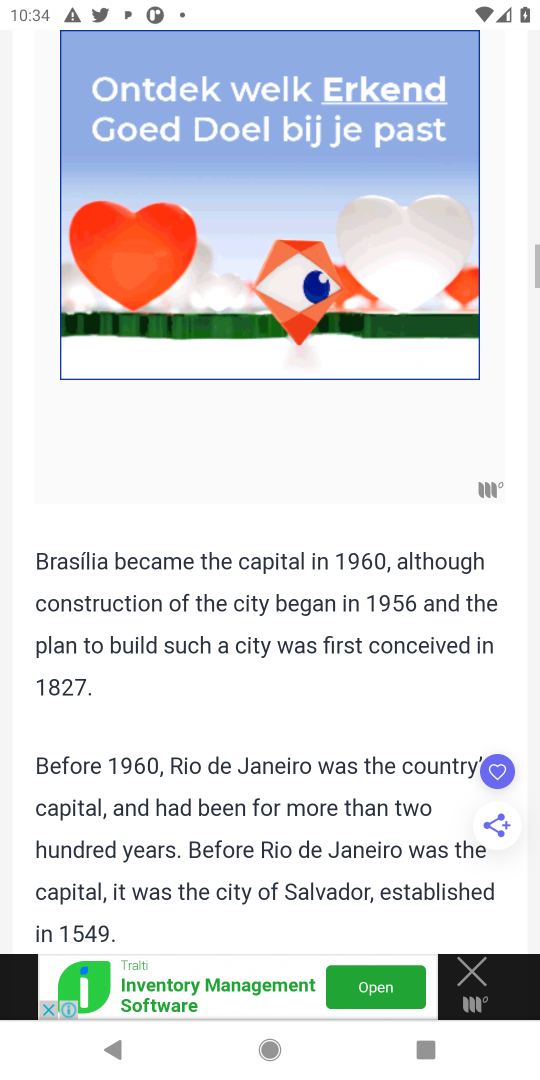
Step 51: drag from (318, 559) to (288, 299)
Your task to perform on an android device: Google the capital of Brazil Image 52: 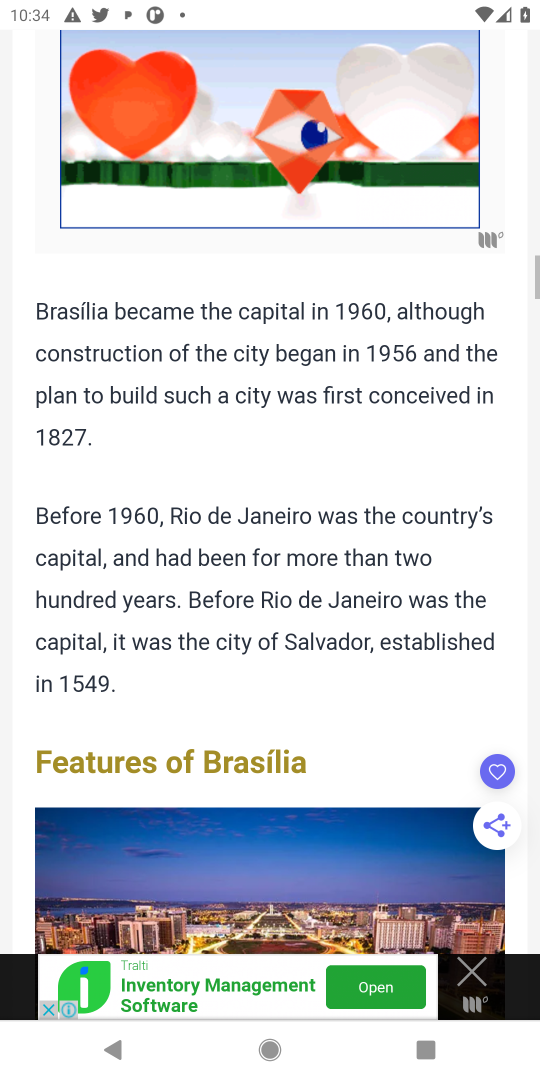
Step 52: drag from (254, 619) to (312, 212)
Your task to perform on an android device: Google the capital of Brazil Image 53: 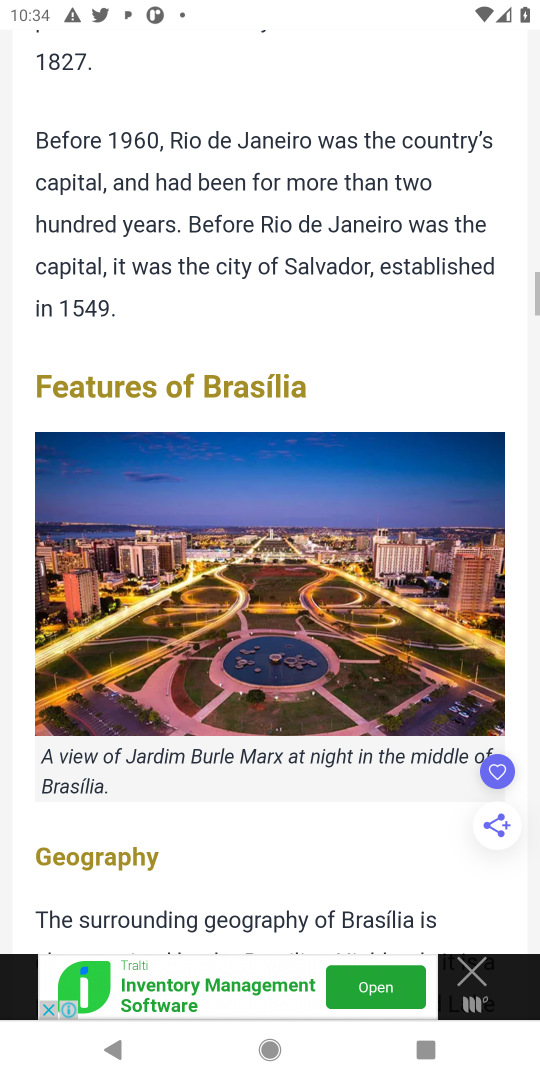
Step 53: drag from (303, 622) to (332, 205)
Your task to perform on an android device: Google the capital of Brazil Image 54: 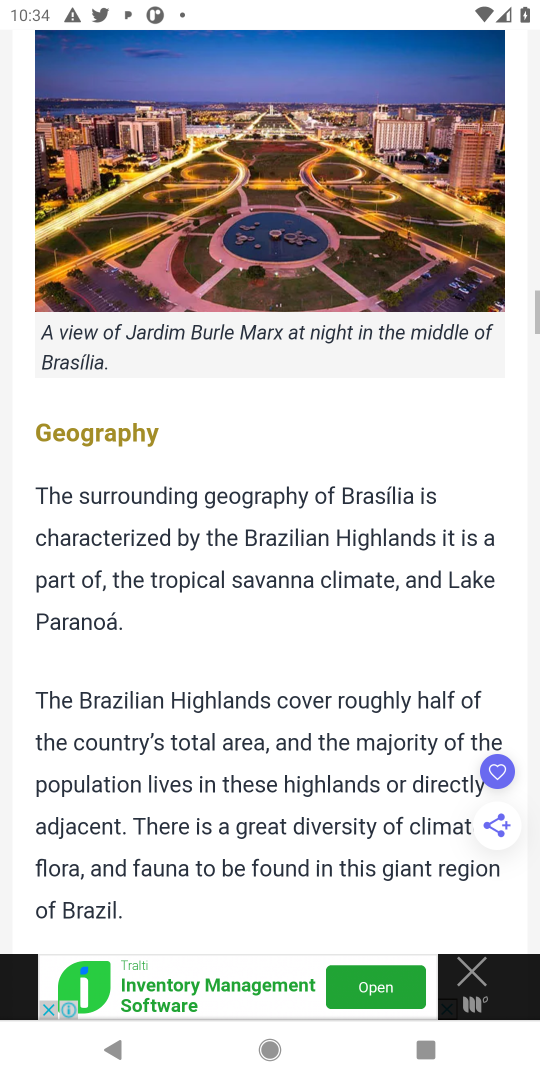
Step 54: click (329, 351)
Your task to perform on an android device: Google the capital of Brazil Image 55: 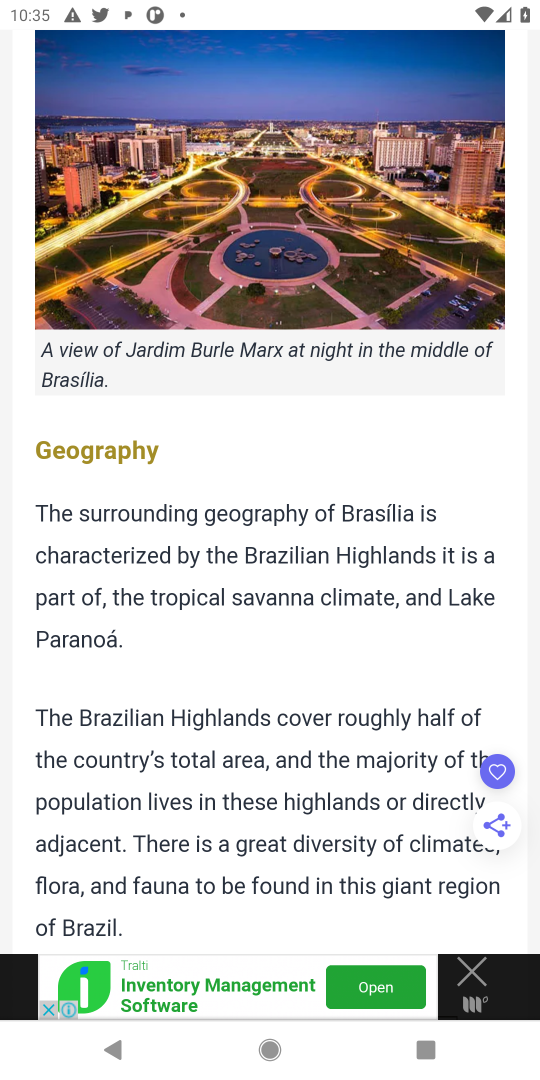
Step 55: drag from (353, 725) to (383, 220)
Your task to perform on an android device: Google the capital of Brazil Image 56: 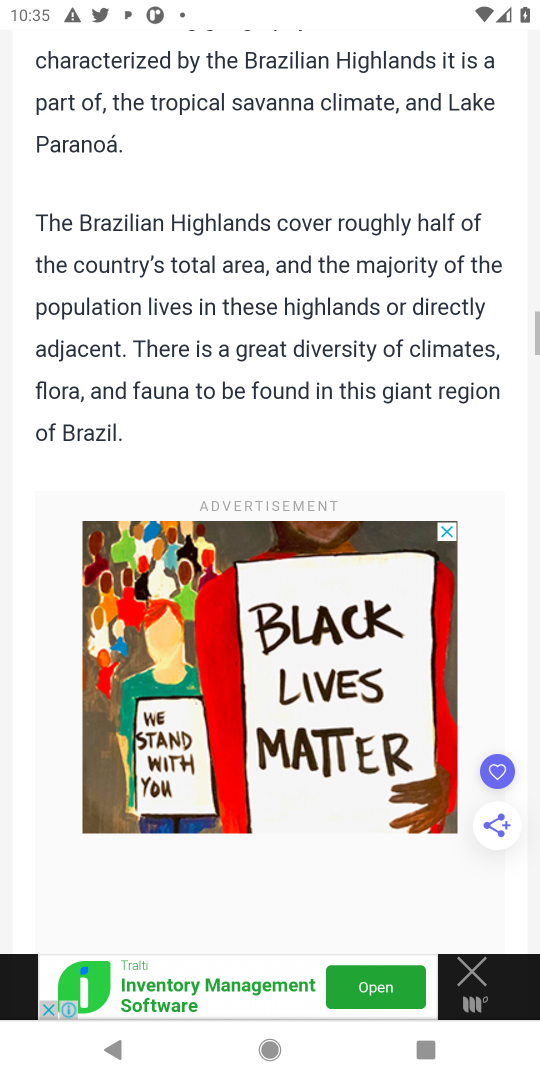
Step 56: drag from (349, 630) to (343, 390)
Your task to perform on an android device: Google the capital of Brazil Image 57: 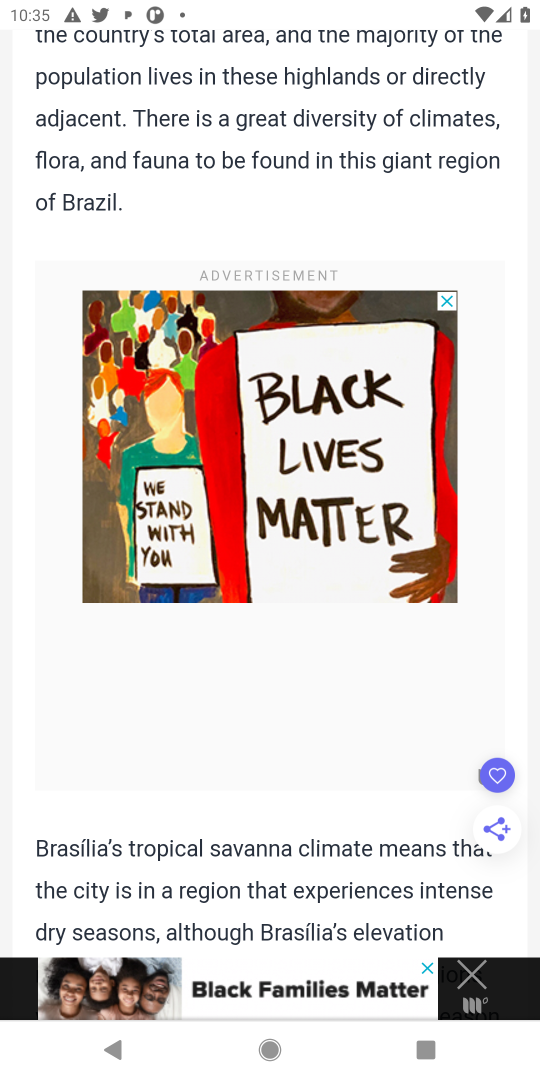
Step 57: drag from (230, 746) to (164, 385)
Your task to perform on an android device: Google the capital of Brazil Image 58: 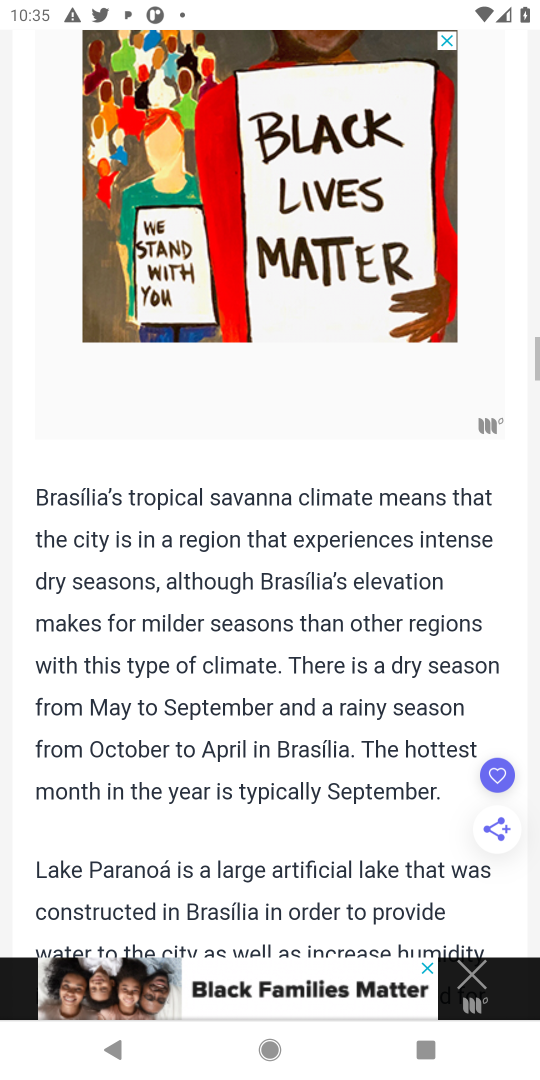
Step 58: drag from (340, 837) to (312, 519)
Your task to perform on an android device: Google the capital of Brazil Image 59: 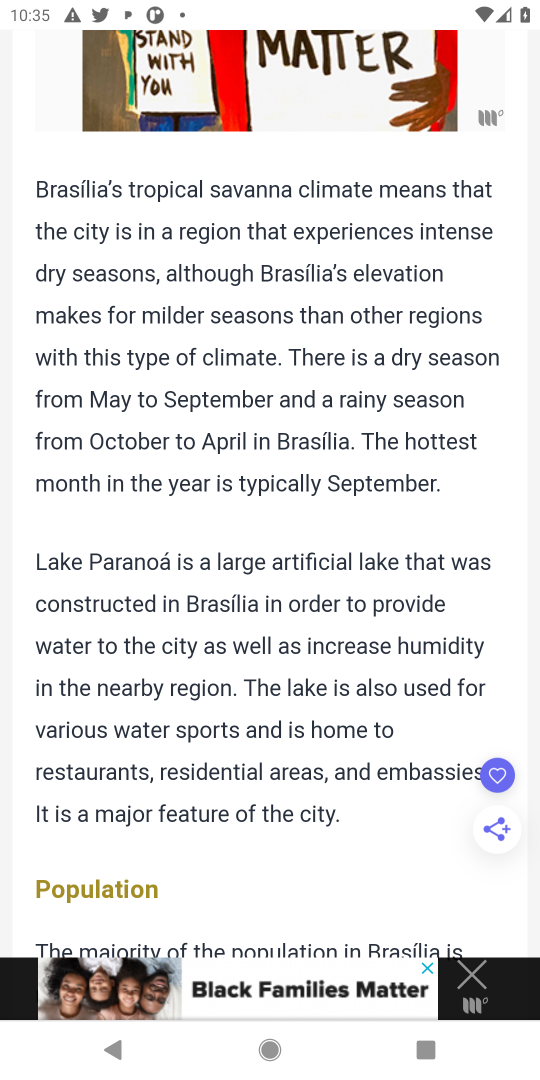
Step 59: drag from (515, 539) to (507, 130)
Your task to perform on an android device: Google the capital of Brazil Image 60: 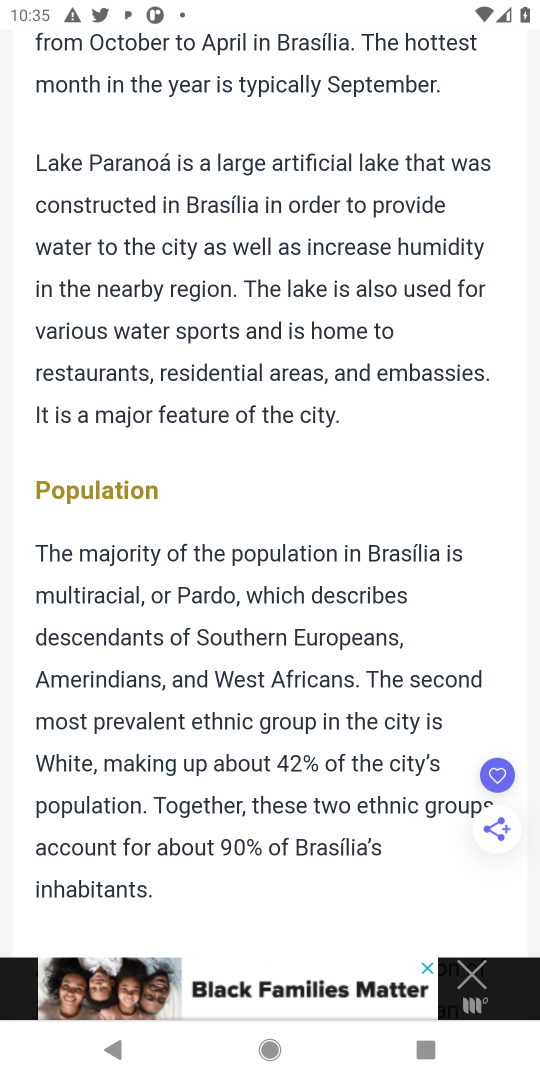
Step 60: drag from (536, 511) to (498, 80)
Your task to perform on an android device: Google the capital of Brazil Image 61: 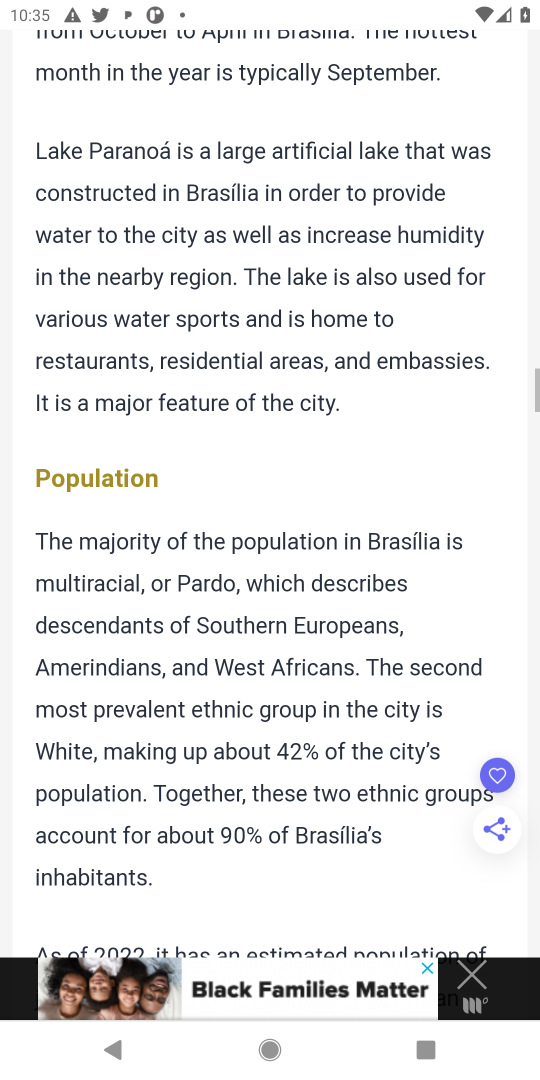
Step 61: drag from (455, 631) to (372, 241)
Your task to perform on an android device: Google the capital of Brazil Image 62: 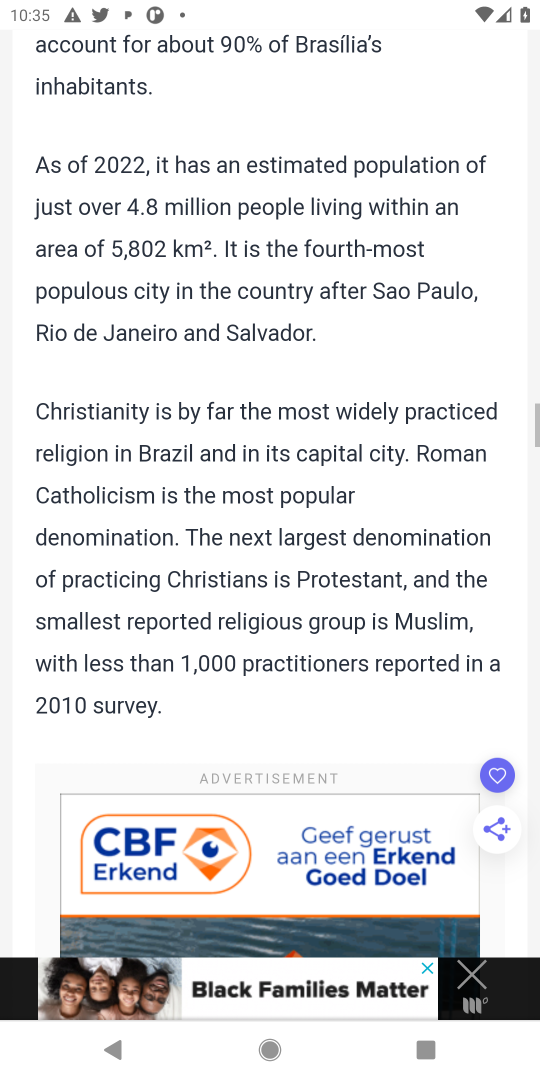
Step 62: click (369, 330)
Your task to perform on an android device: Google the capital of Brazil Image 63: 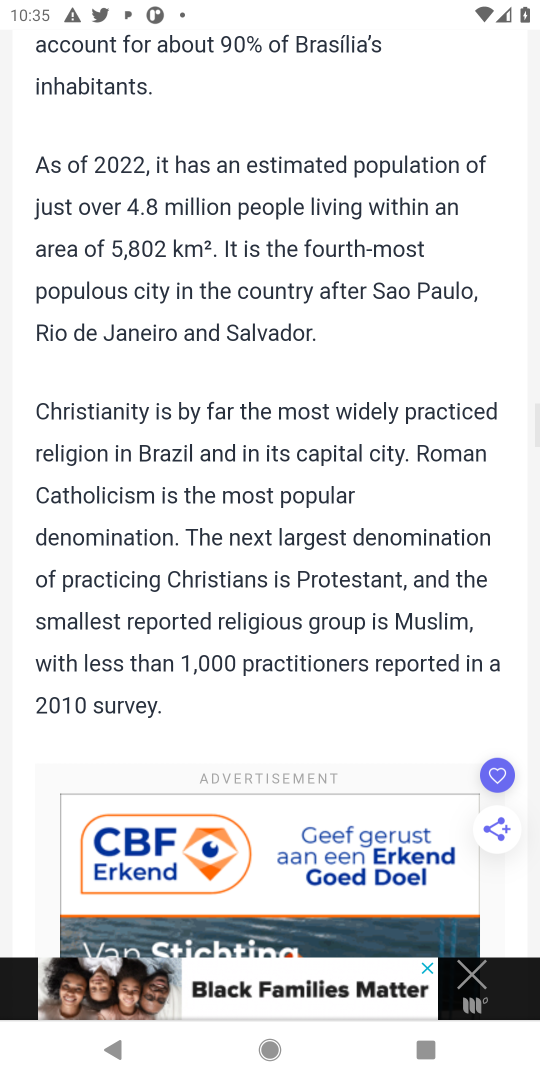
Step 63: drag from (346, 697) to (291, 364)
Your task to perform on an android device: Google the capital of Brazil Image 64: 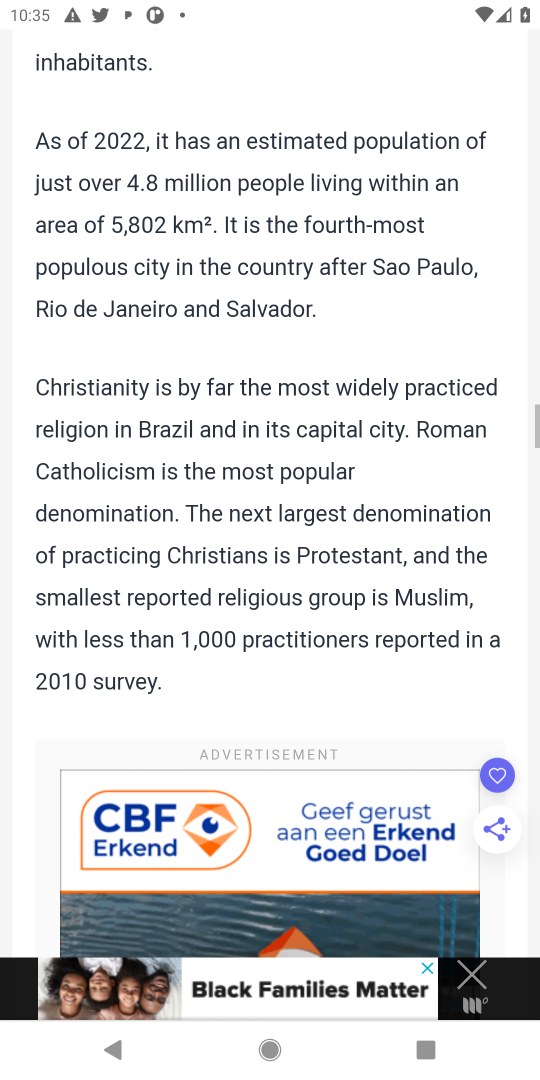
Step 64: drag from (346, 699) to (315, 240)
Your task to perform on an android device: Google the capital of Brazil Image 65: 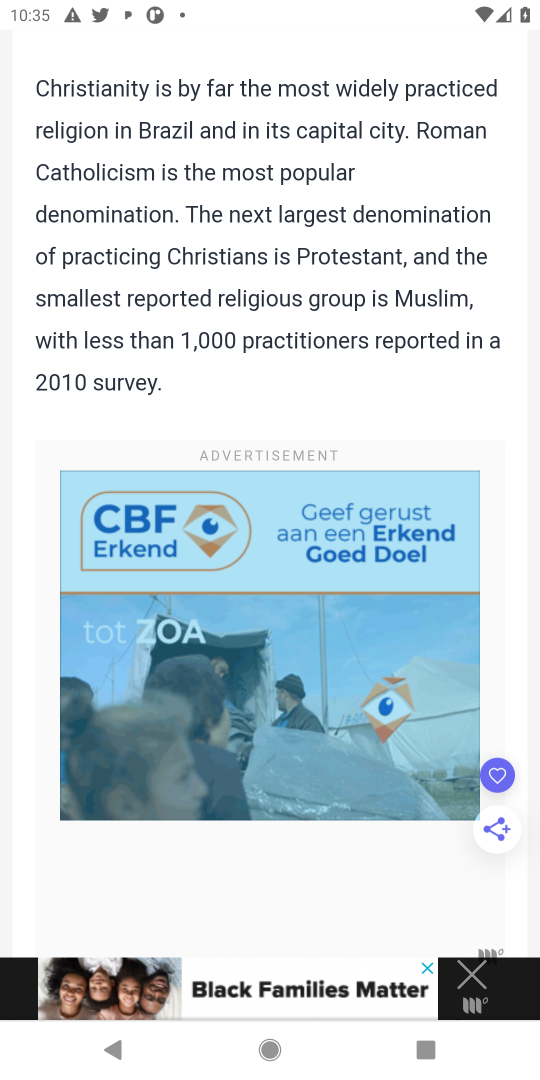
Step 65: drag from (334, 682) to (322, 180)
Your task to perform on an android device: Google the capital of Brazil Image 66: 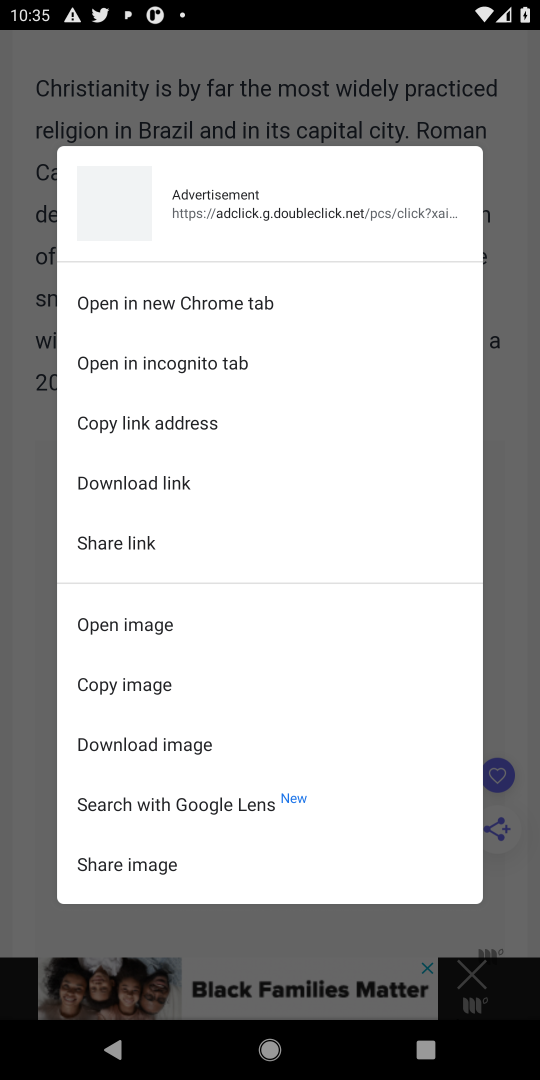
Step 66: drag from (363, 791) to (346, 281)
Your task to perform on an android device: Google the capital of Brazil Image 67: 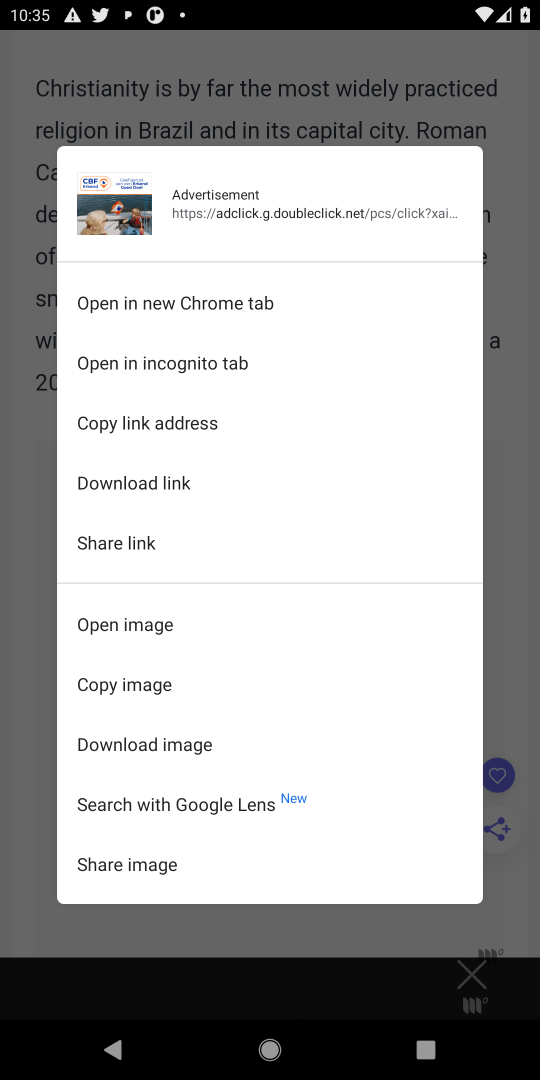
Step 67: click (455, 78)
Your task to perform on an android device: Google the capital of Brazil Image 68: 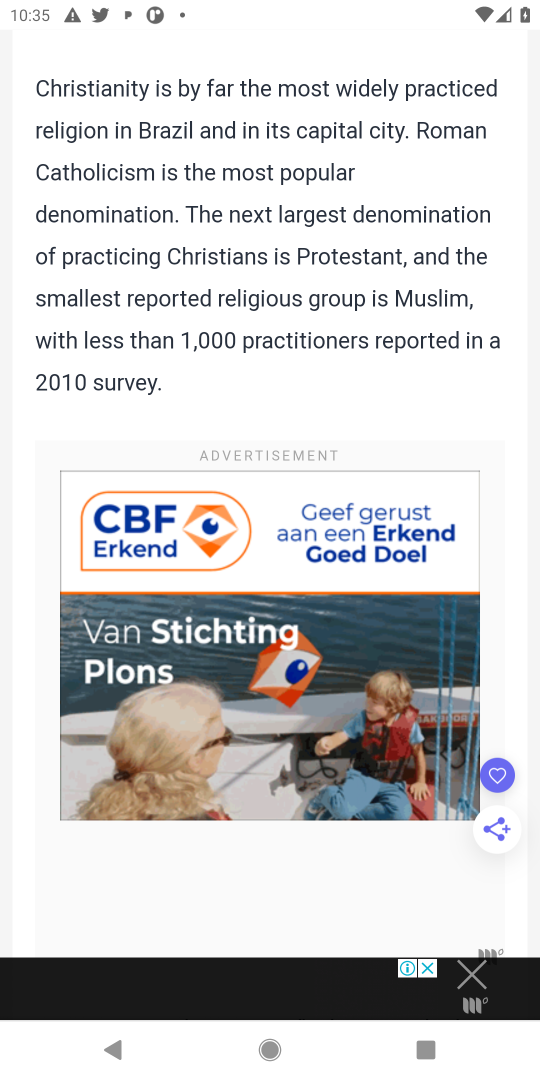
Step 68: task complete